Your task to perform on an android device: Look up the best selling books on Goodreads. Image 0: 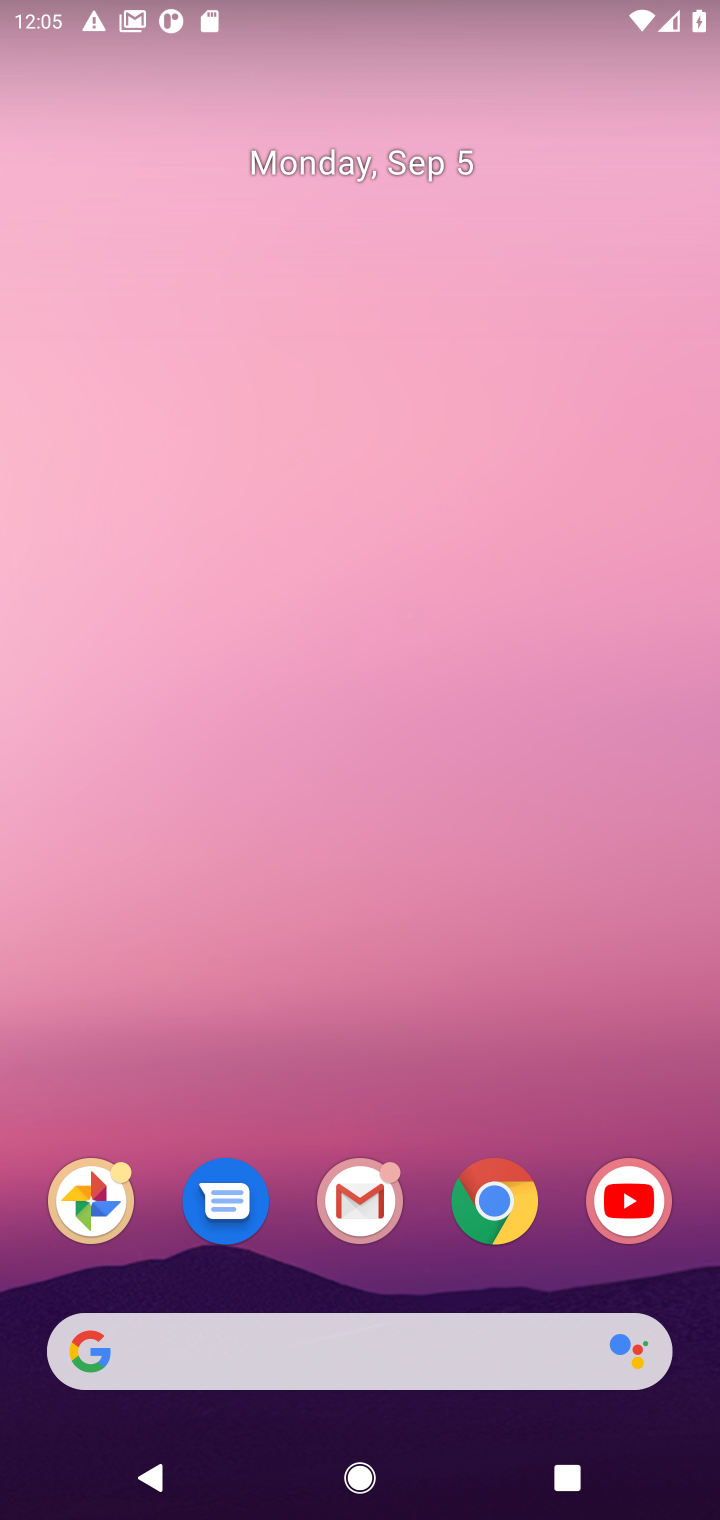
Step 0: click (507, 1187)
Your task to perform on an android device: Look up the best selling books on Goodreads. Image 1: 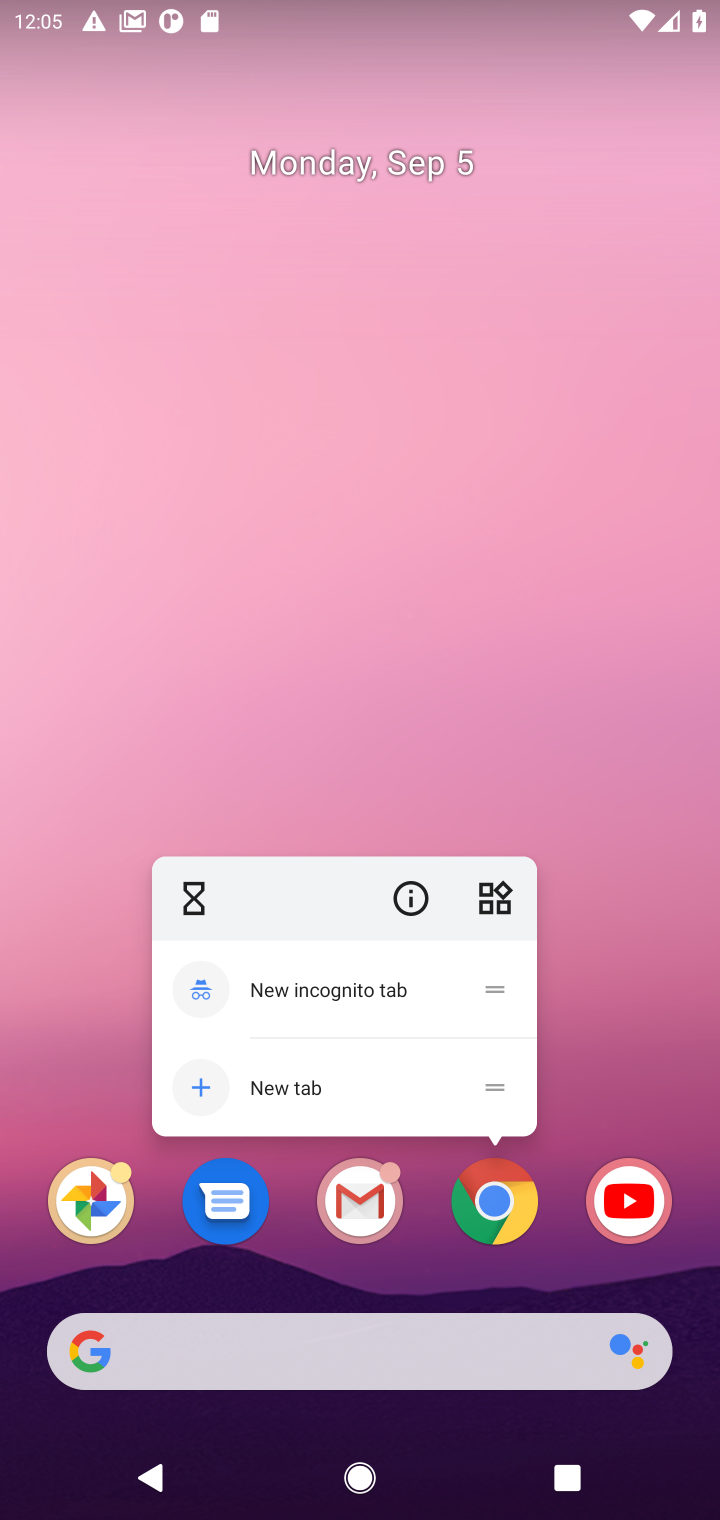
Step 1: click (491, 1227)
Your task to perform on an android device: Look up the best selling books on Goodreads. Image 2: 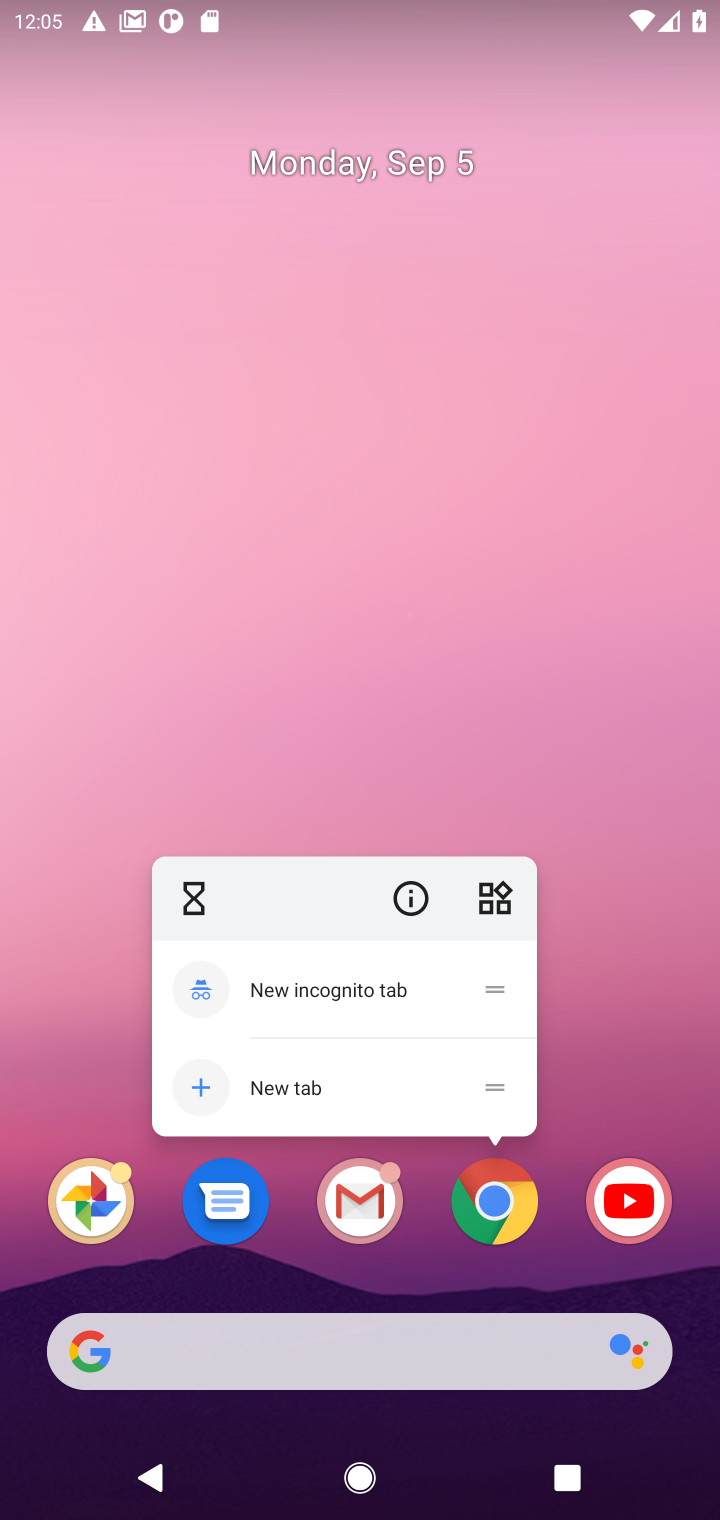
Step 2: click (490, 1231)
Your task to perform on an android device: Look up the best selling books on Goodreads. Image 3: 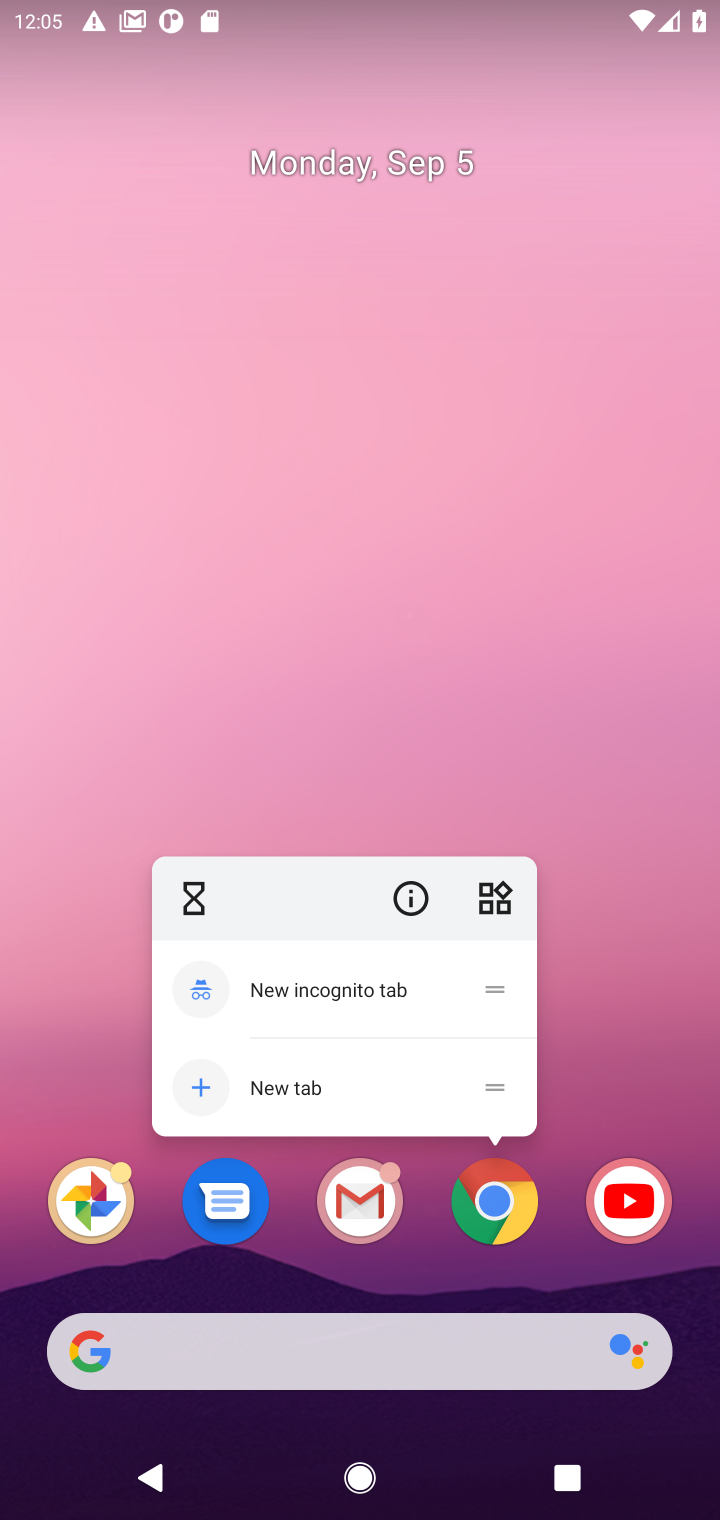
Step 3: click (490, 1220)
Your task to perform on an android device: Look up the best selling books on Goodreads. Image 4: 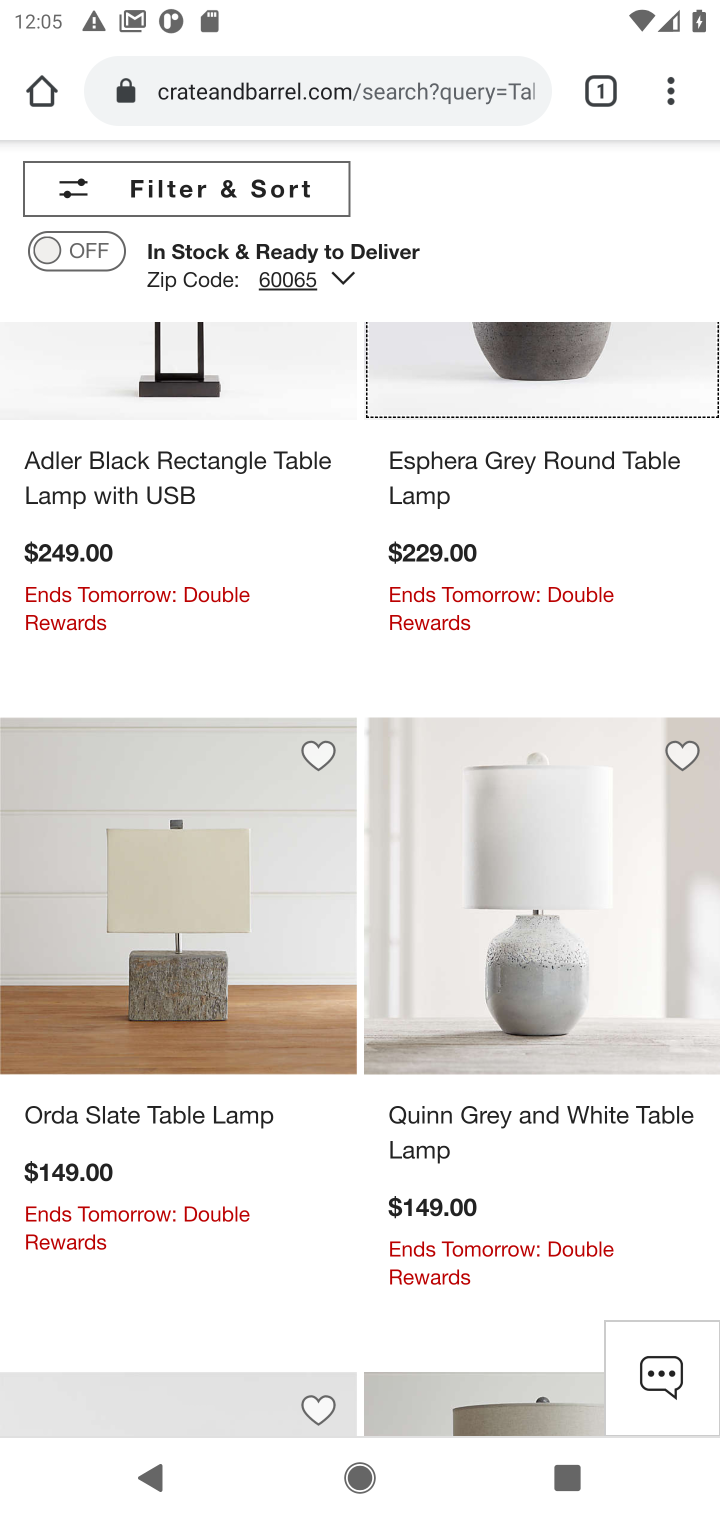
Step 4: click (327, 77)
Your task to perform on an android device: Look up the best selling books on Goodreads. Image 5: 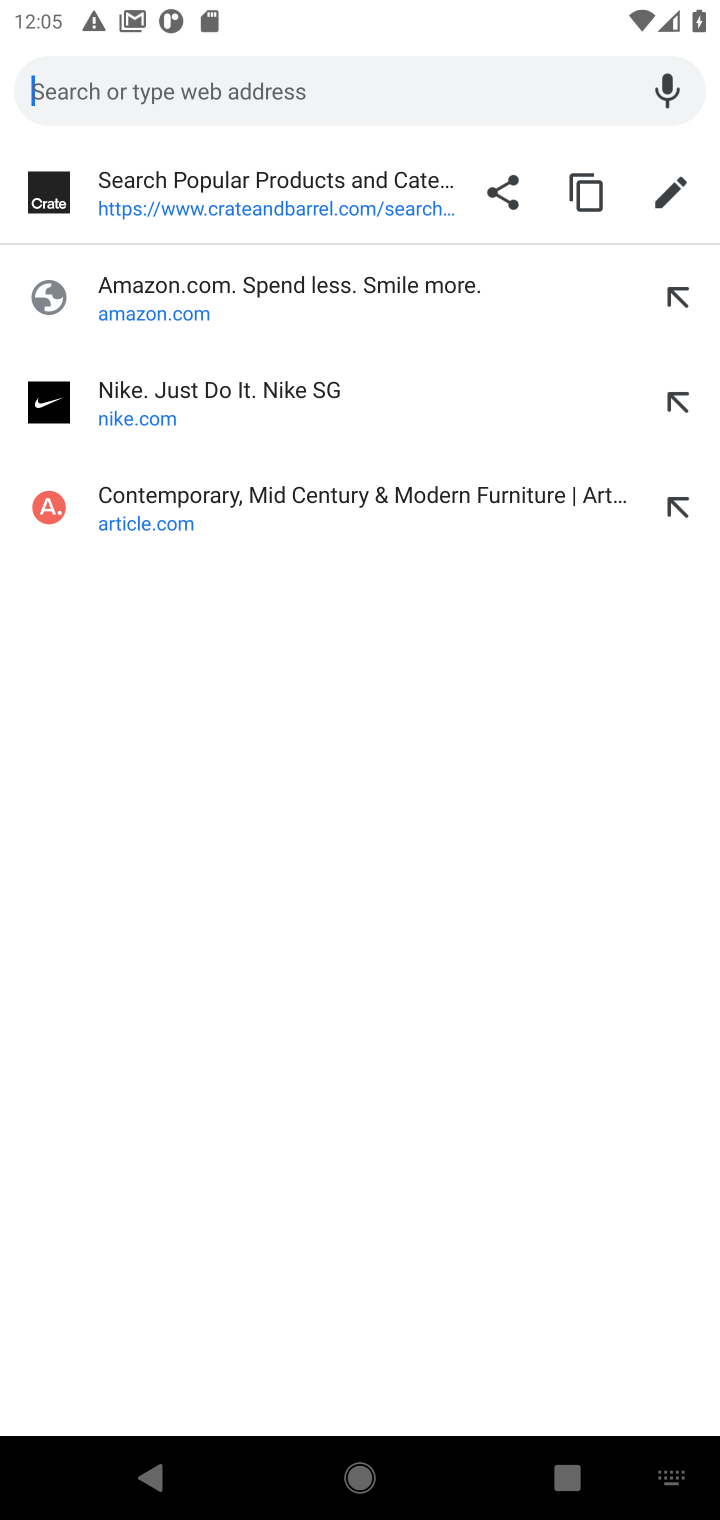
Step 5: type "goodreads"
Your task to perform on an android device: Look up the best selling books on Goodreads. Image 6: 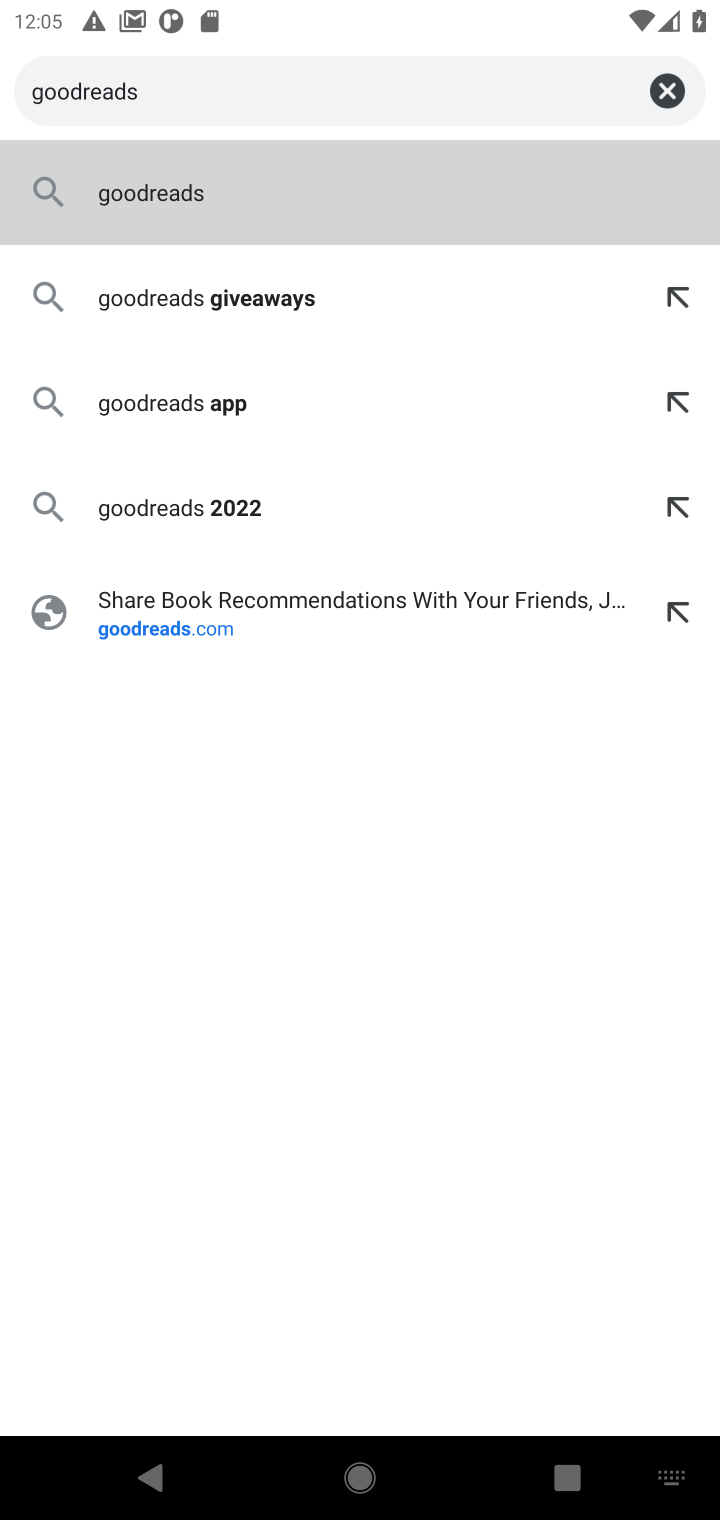
Step 6: type ""
Your task to perform on an android device: Look up the best selling books on Goodreads. Image 7: 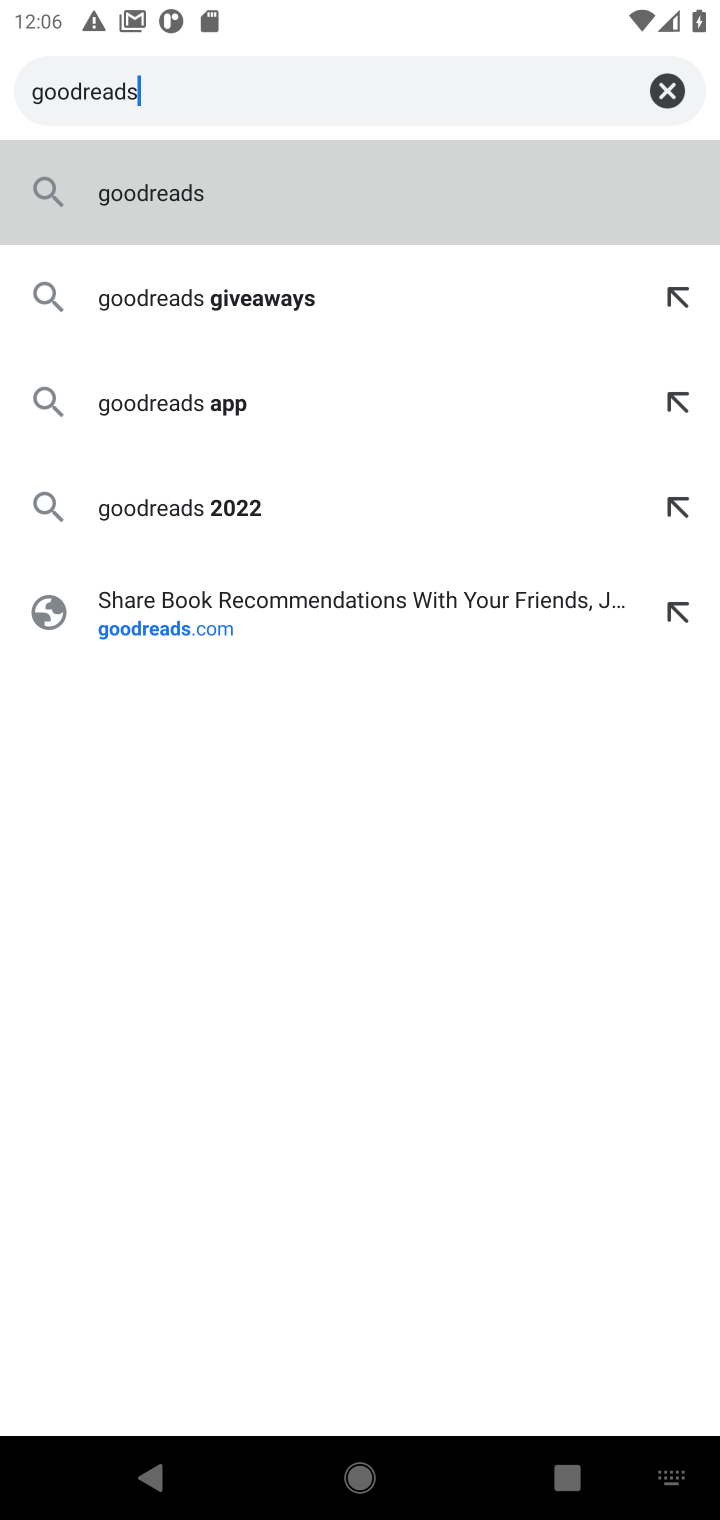
Step 7: click (155, 623)
Your task to perform on an android device: Look up the best selling books on Goodreads. Image 8: 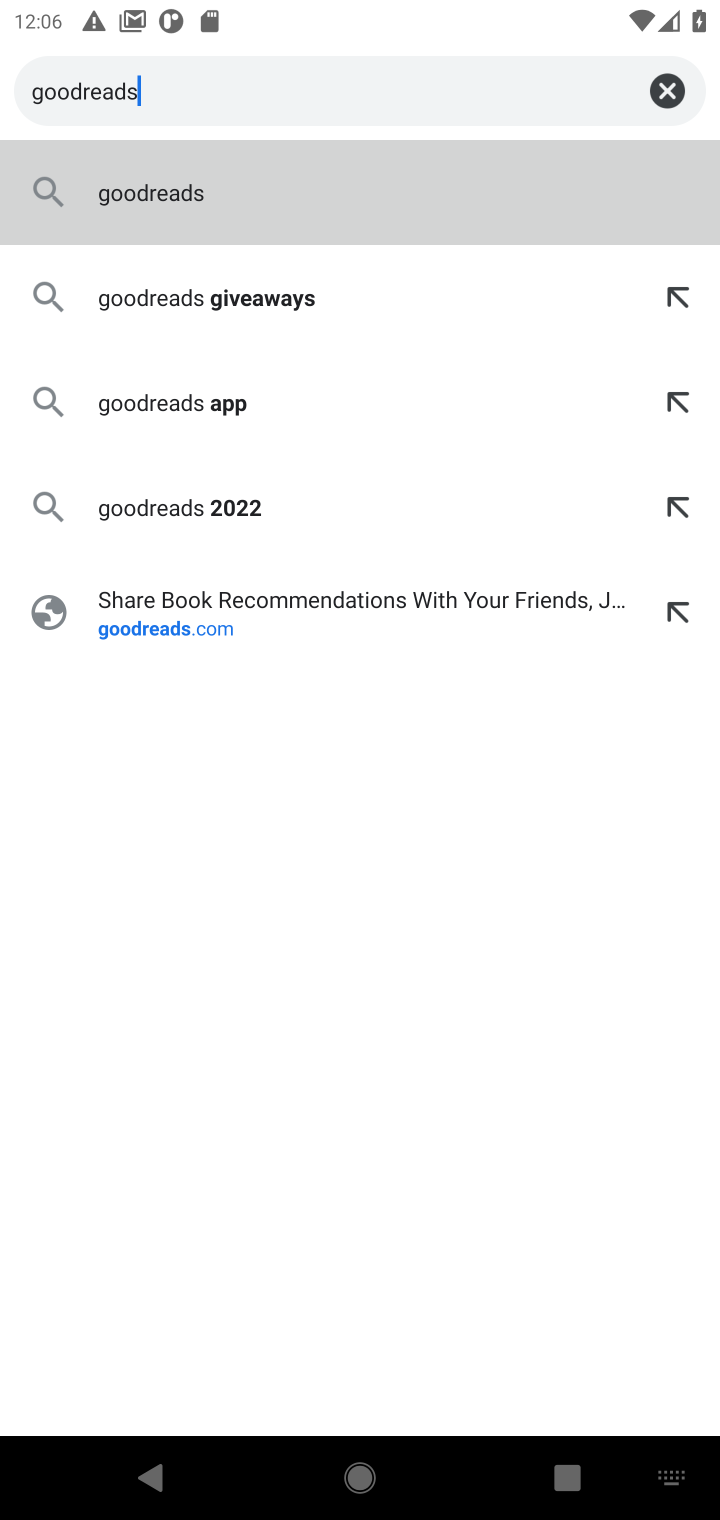
Step 8: click (155, 626)
Your task to perform on an android device: Look up the best selling books on Goodreads. Image 9: 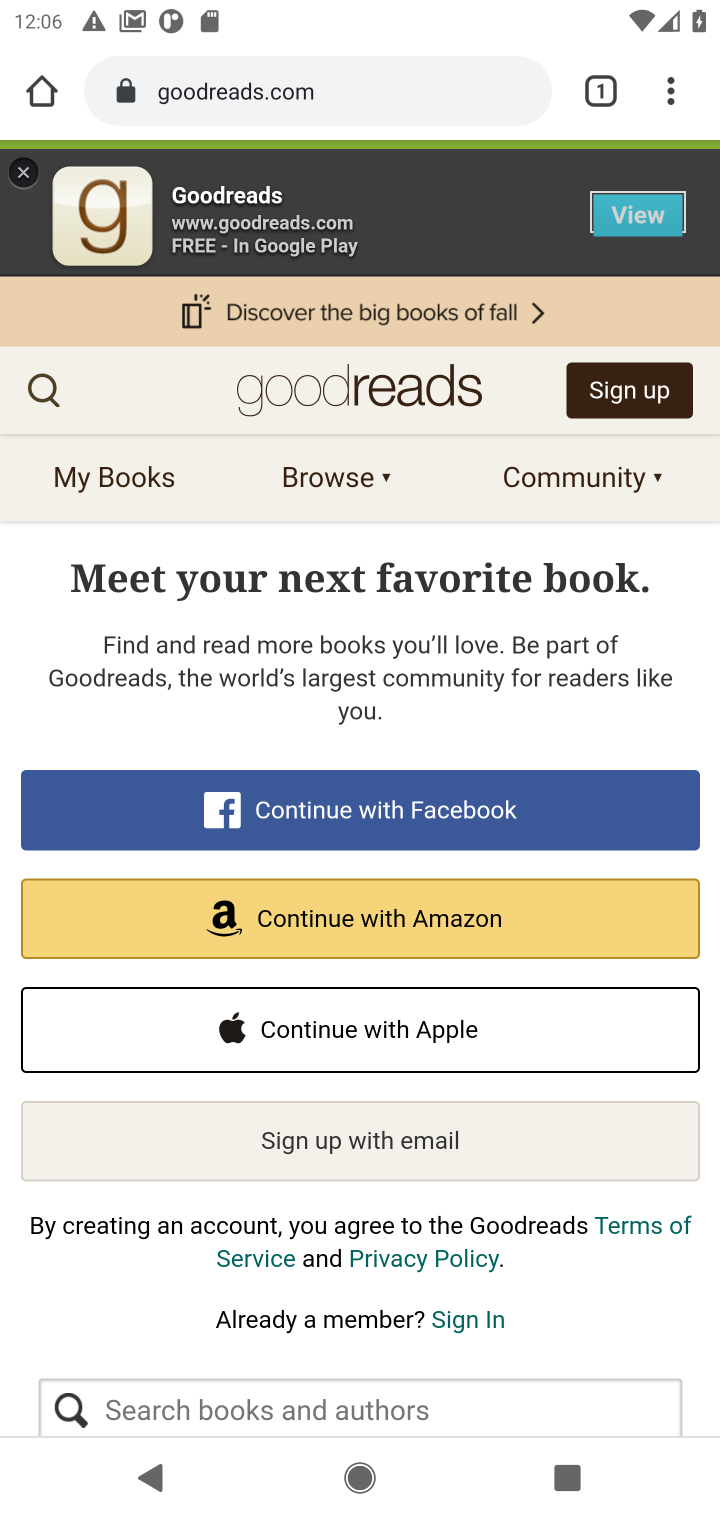
Step 9: click (44, 385)
Your task to perform on an android device: Look up the best selling books on Goodreads. Image 10: 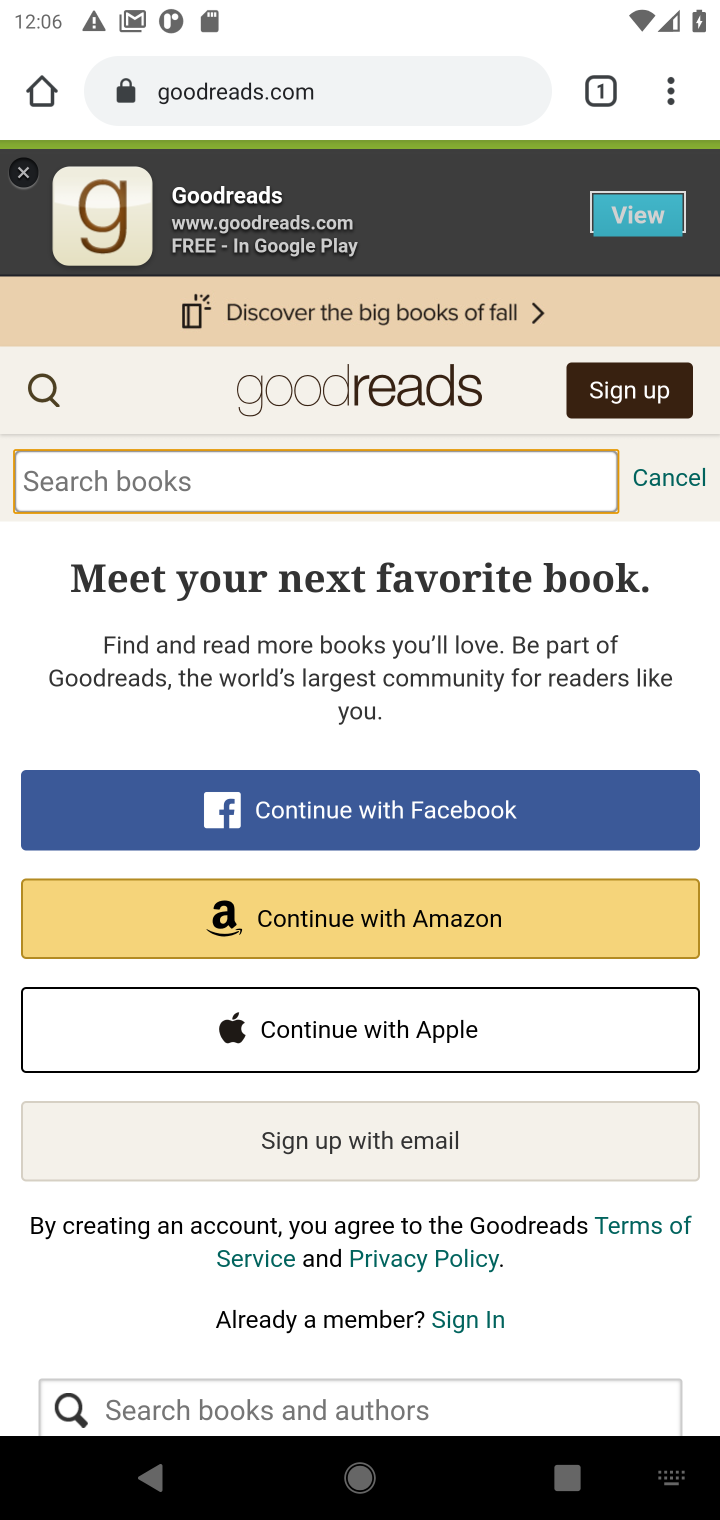
Step 10: click (95, 483)
Your task to perform on an android device: Look up the best selling books on Goodreads. Image 11: 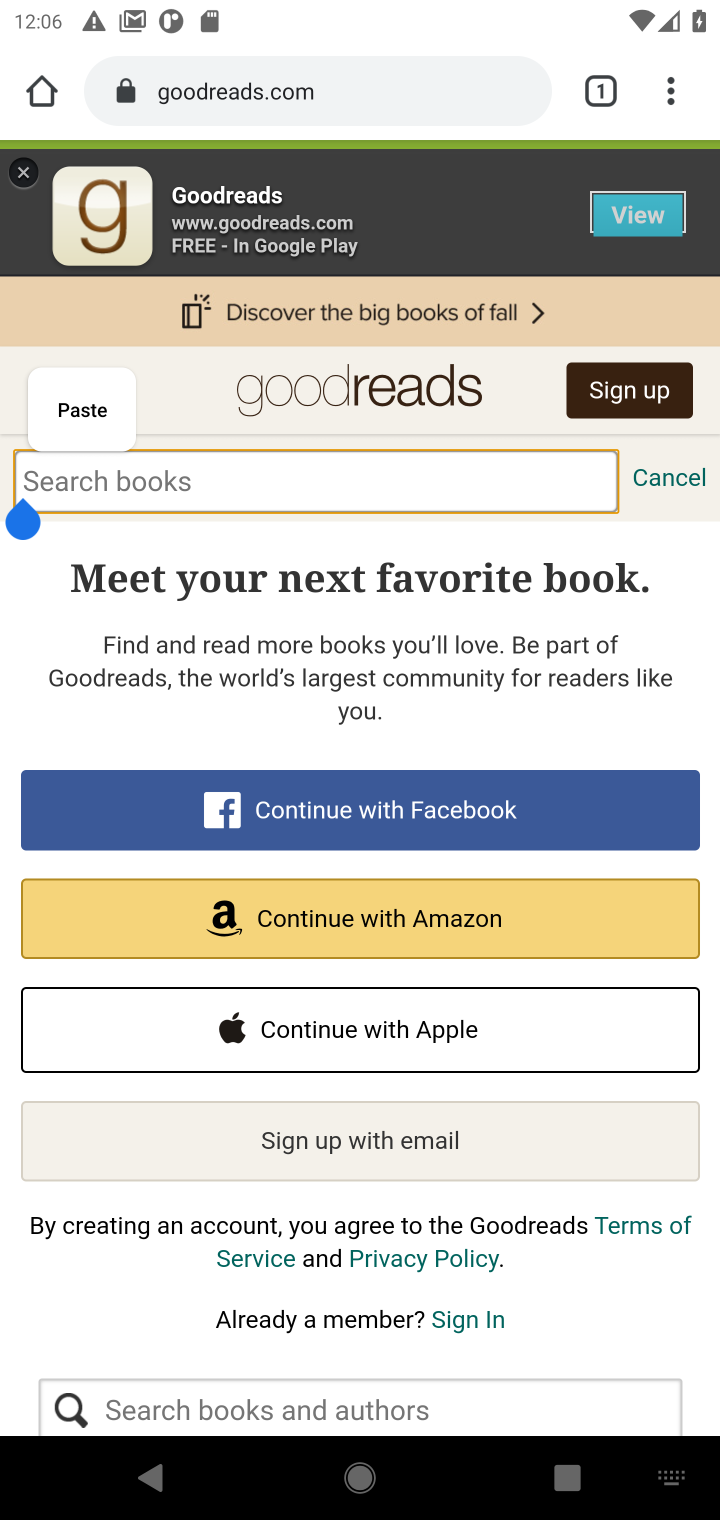
Step 11: type "best books"
Your task to perform on an android device: Look up the best selling books on Goodreads. Image 12: 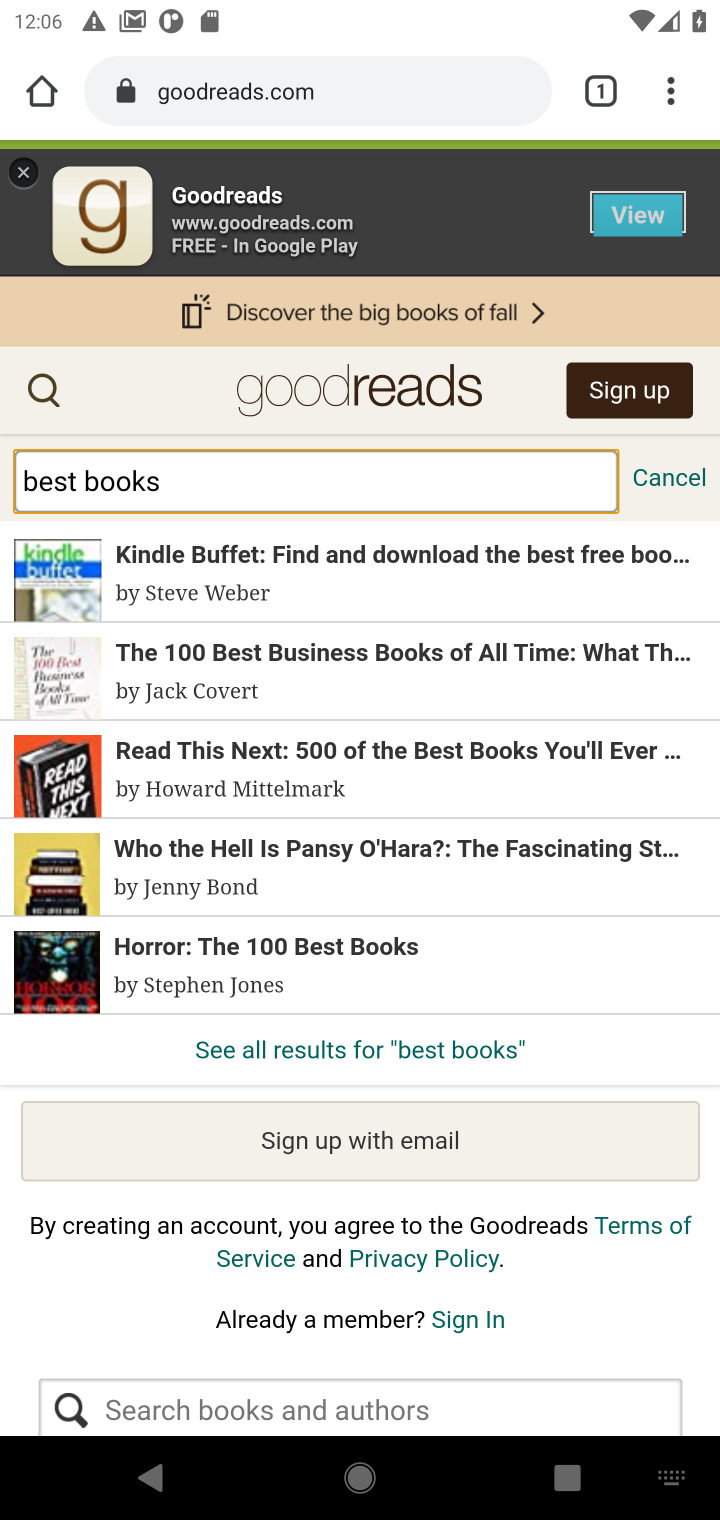
Step 12: click (282, 683)
Your task to perform on an android device: Look up the best selling books on Goodreads. Image 13: 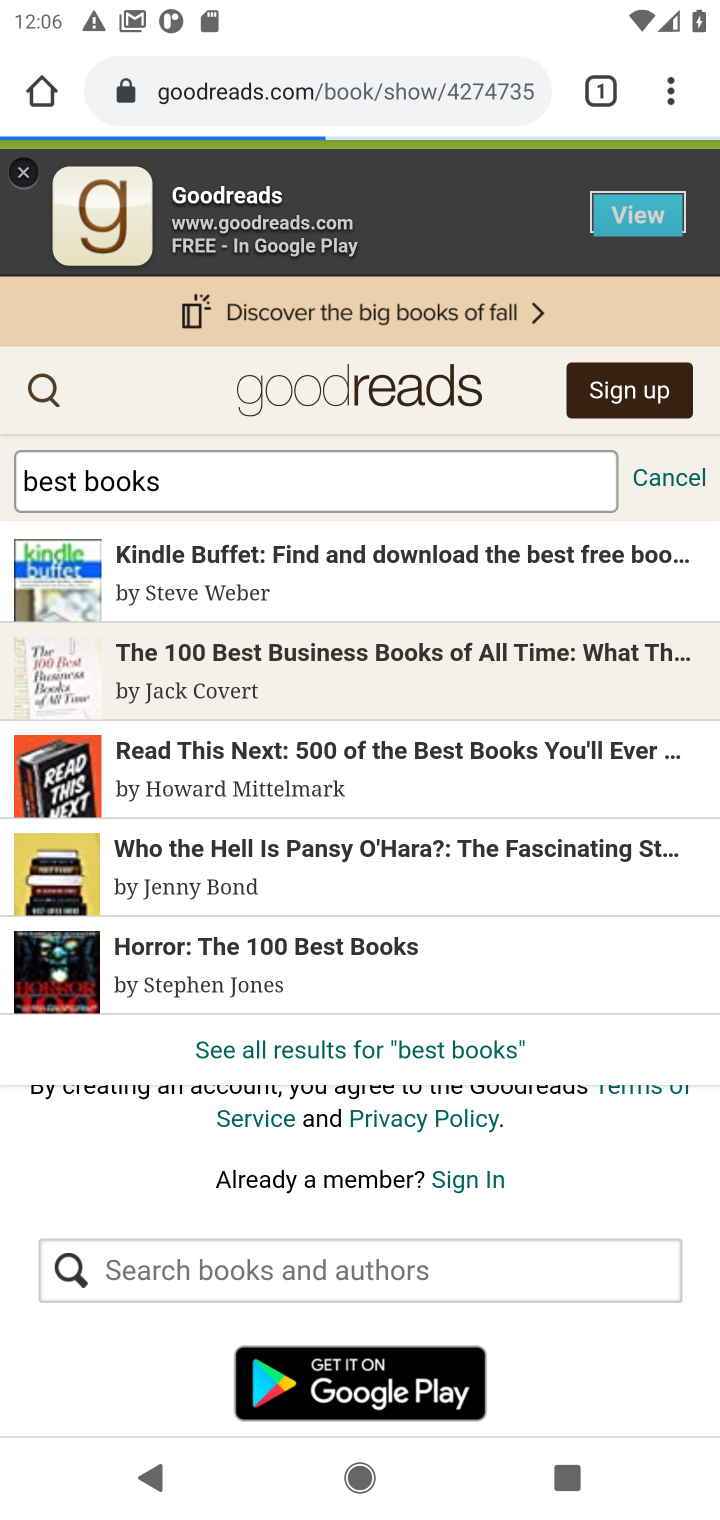
Step 13: click (354, 703)
Your task to perform on an android device: Look up the best selling books on Goodreads. Image 14: 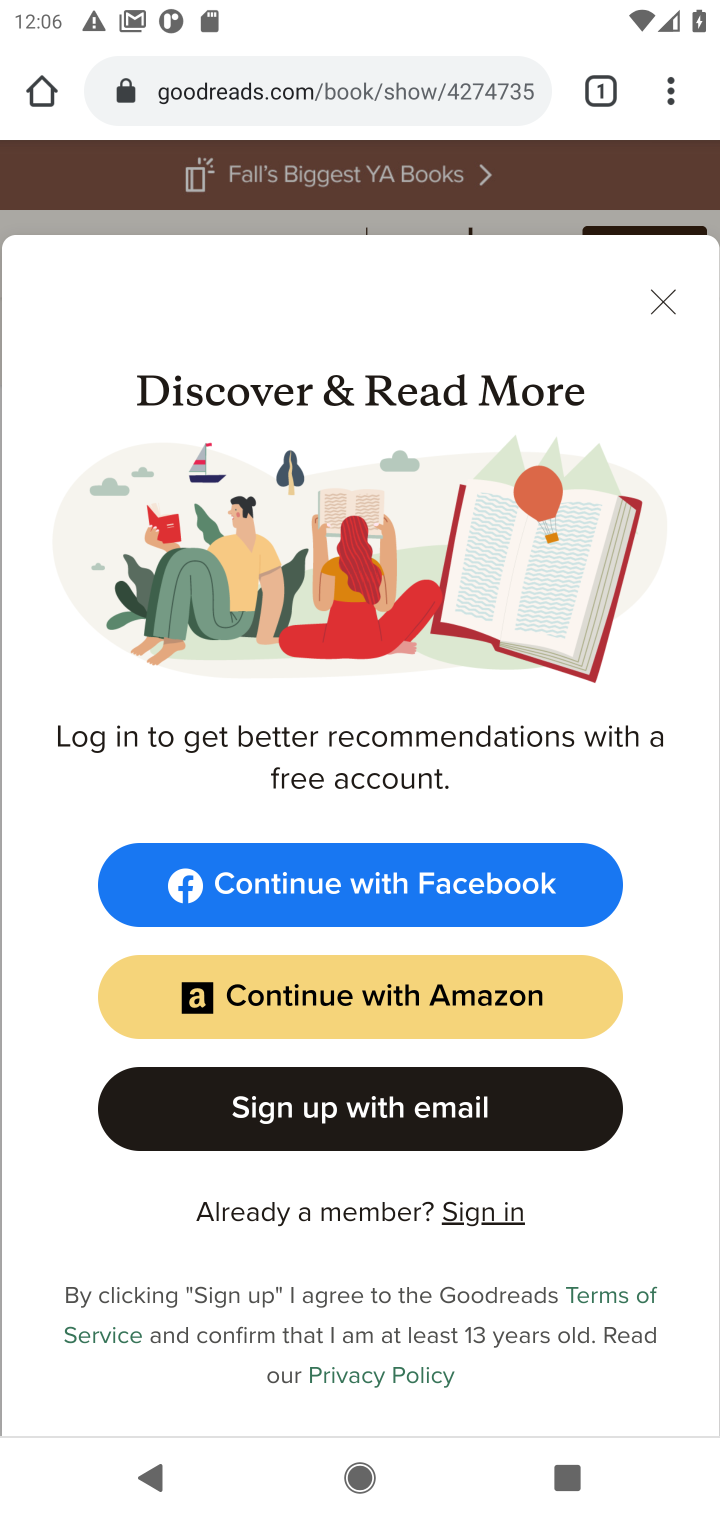
Step 14: click (651, 303)
Your task to perform on an android device: Look up the best selling books on Goodreads. Image 15: 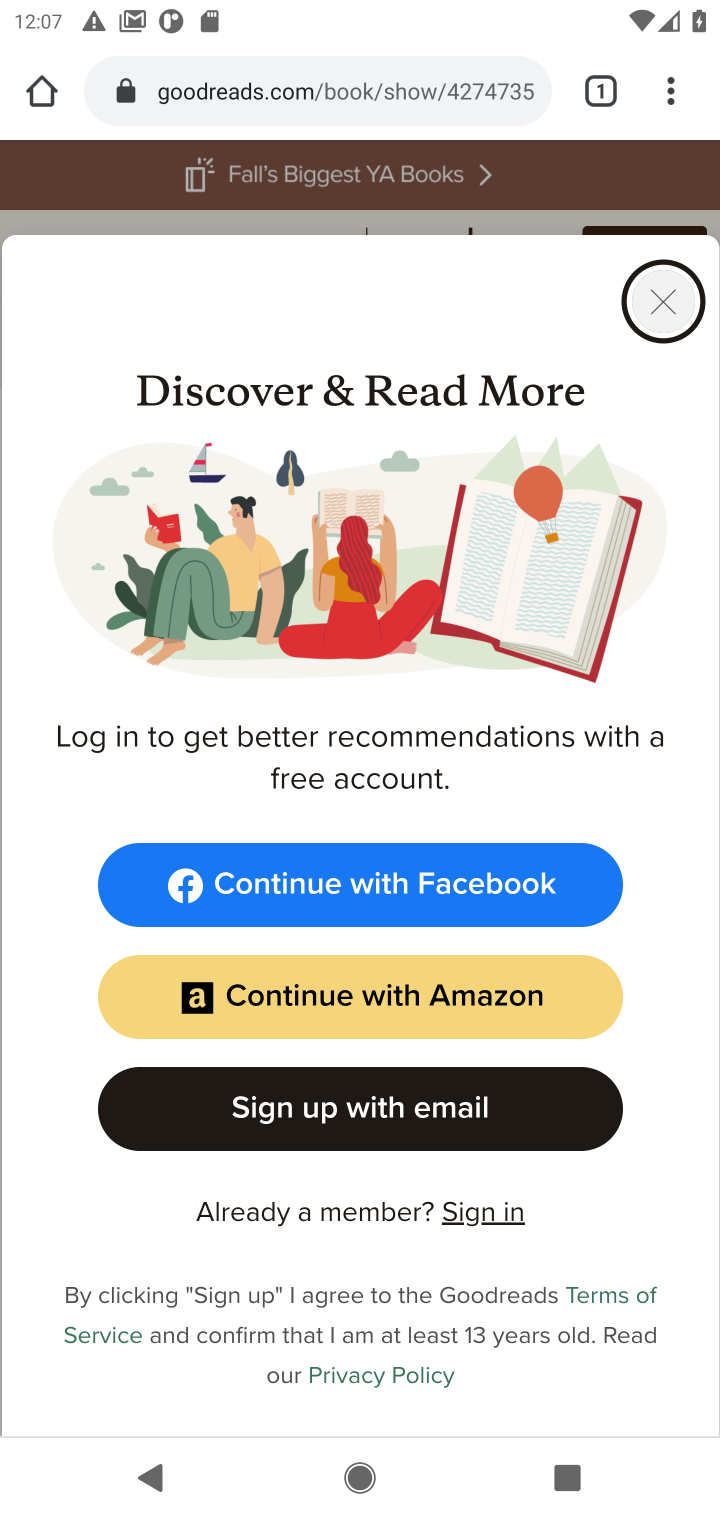
Step 15: click (656, 306)
Your task to perform on an android device: Look up the best selling books on Goodreads. Image 16: 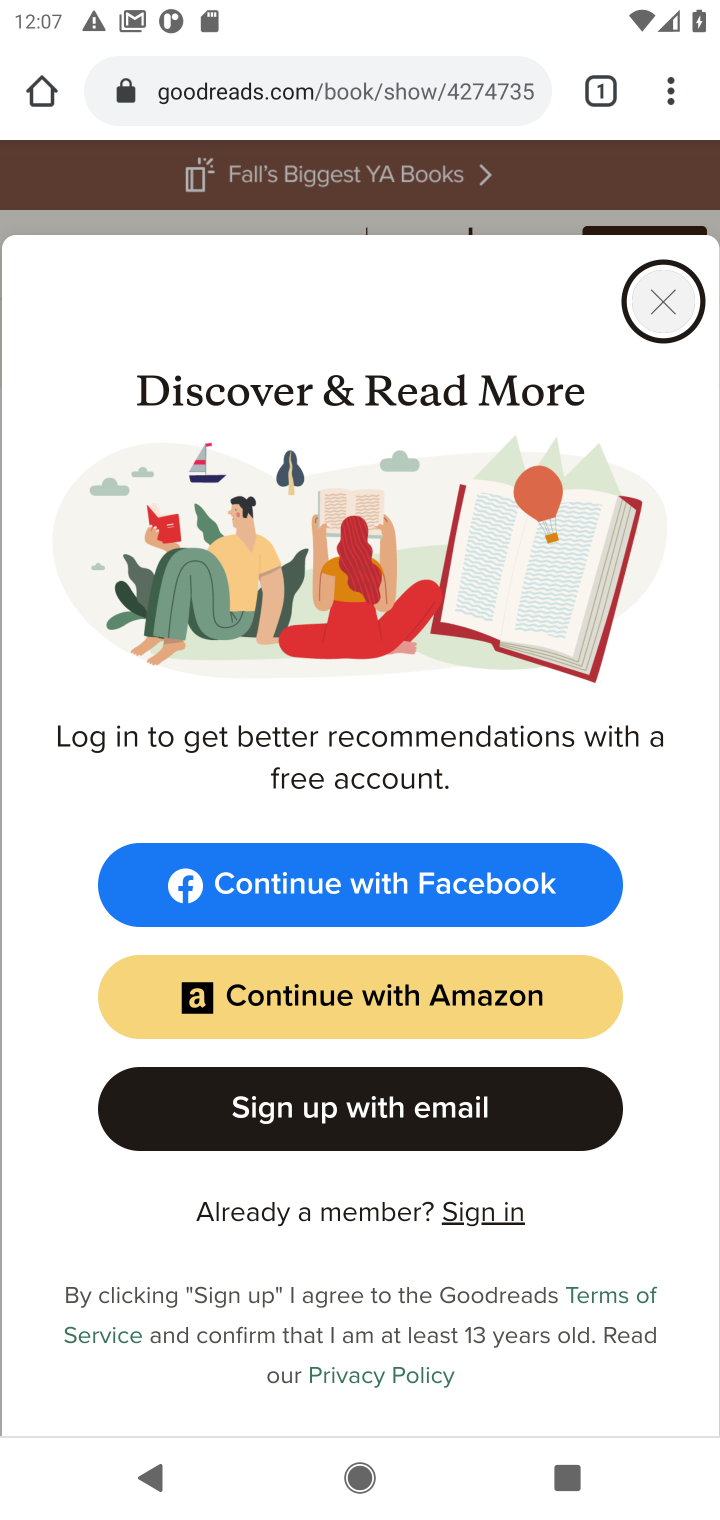
Step 16: click (677, 316)
Your task to perform on an android device: Look up the best selling books on Goodreads. Image 17: 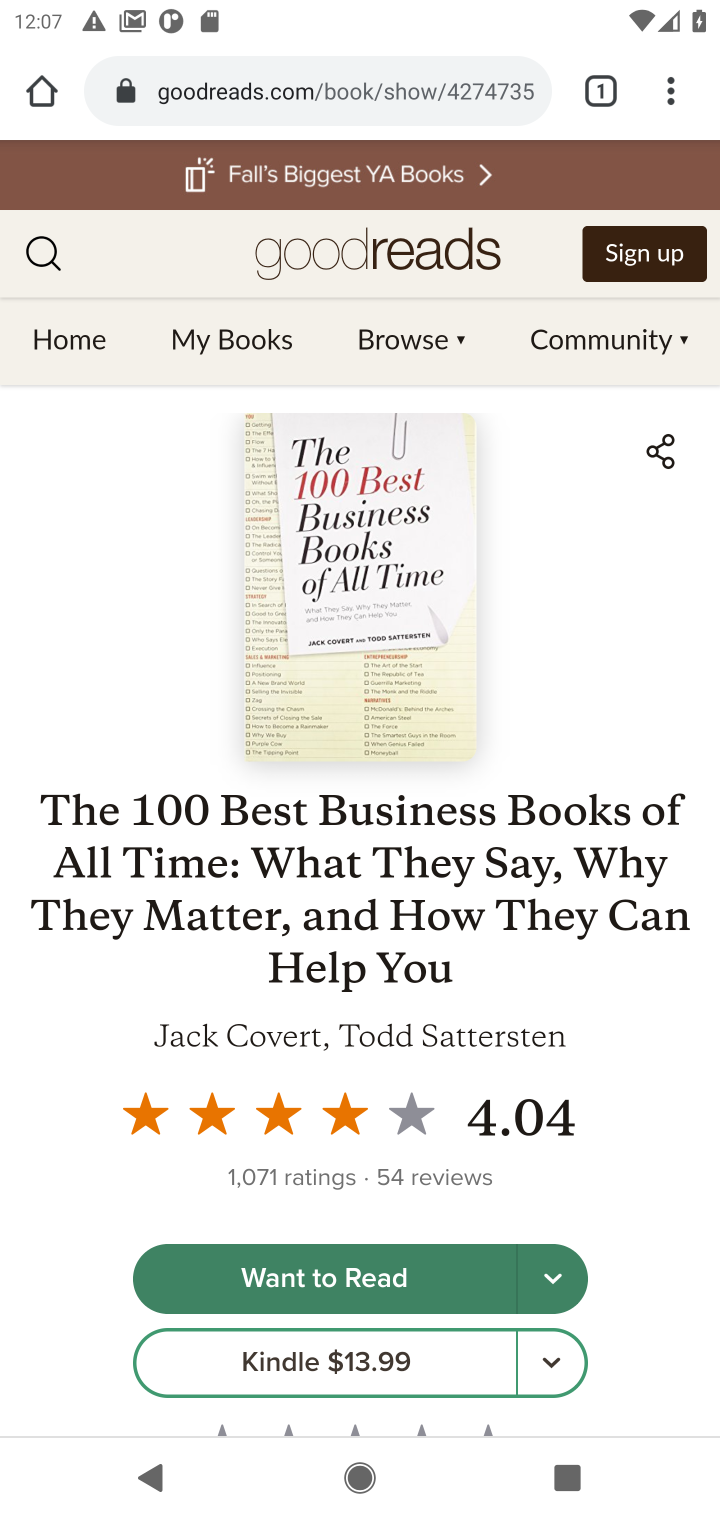
Step 17: click (38, 246)
Your task to perform on an android device: Look up the best selling books on Goodreads. Image 18: 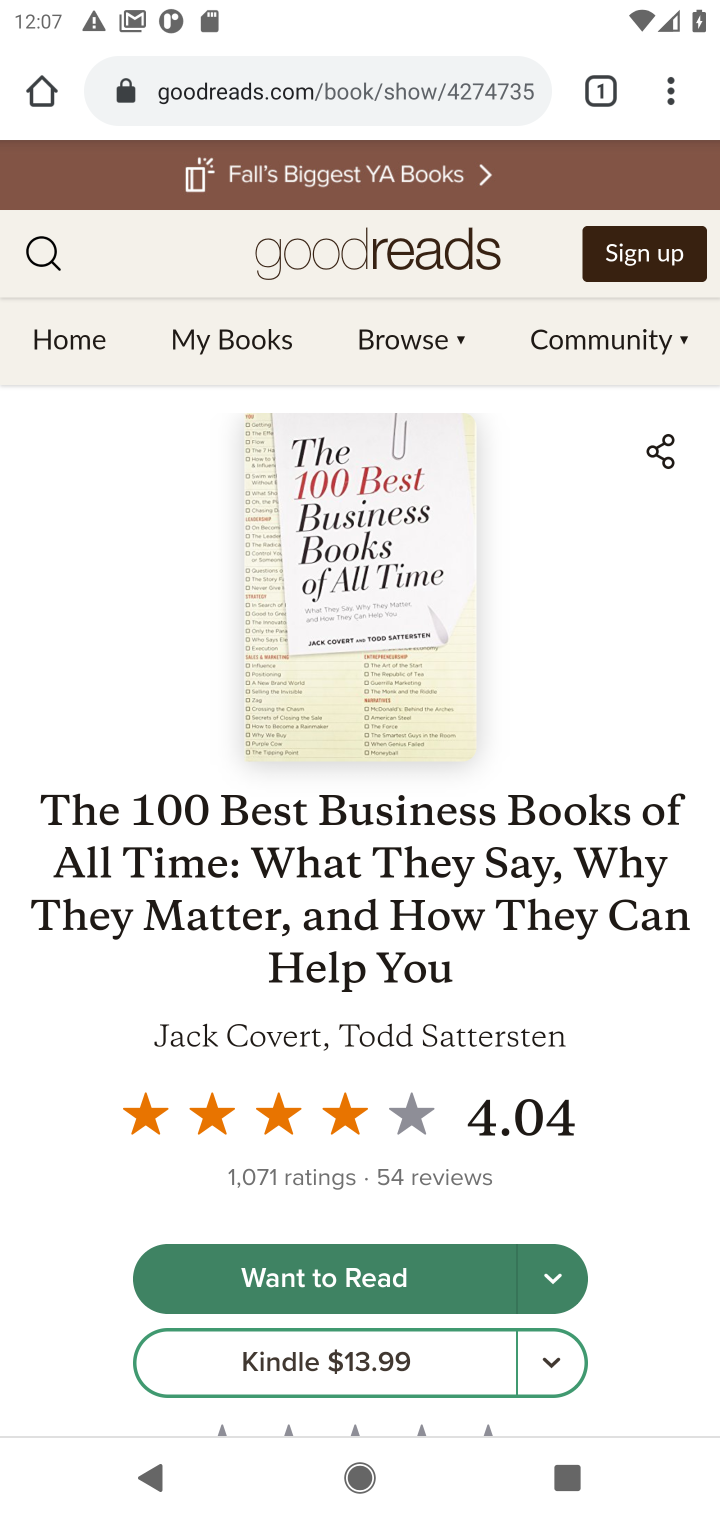
Step 18: click (38, 246)
Your task to perform on an android device: Look up the best selling books on Goodreads. Image 19: 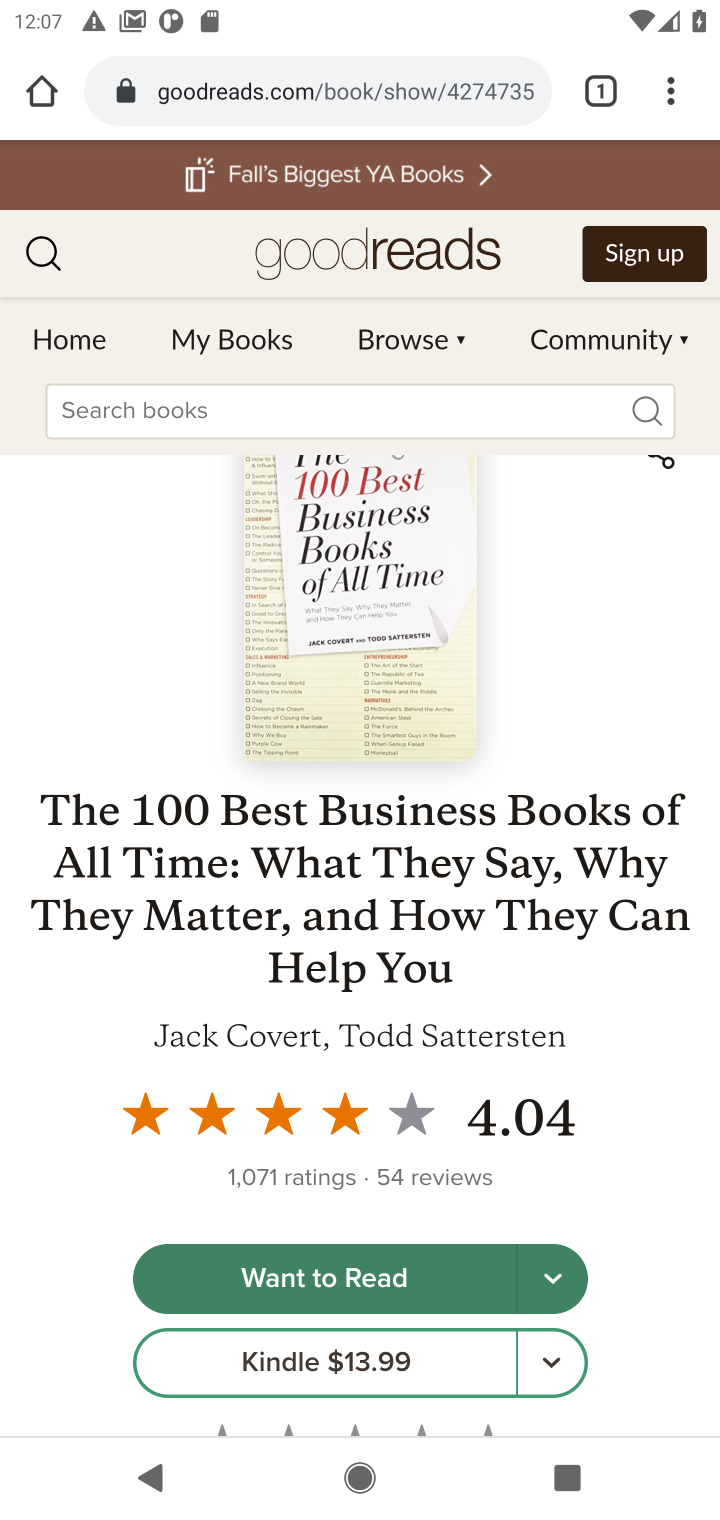
Step 19: click (166, 402)
Your task to perform on an android device: Look up the best selling books on Goodreads. Image 20: 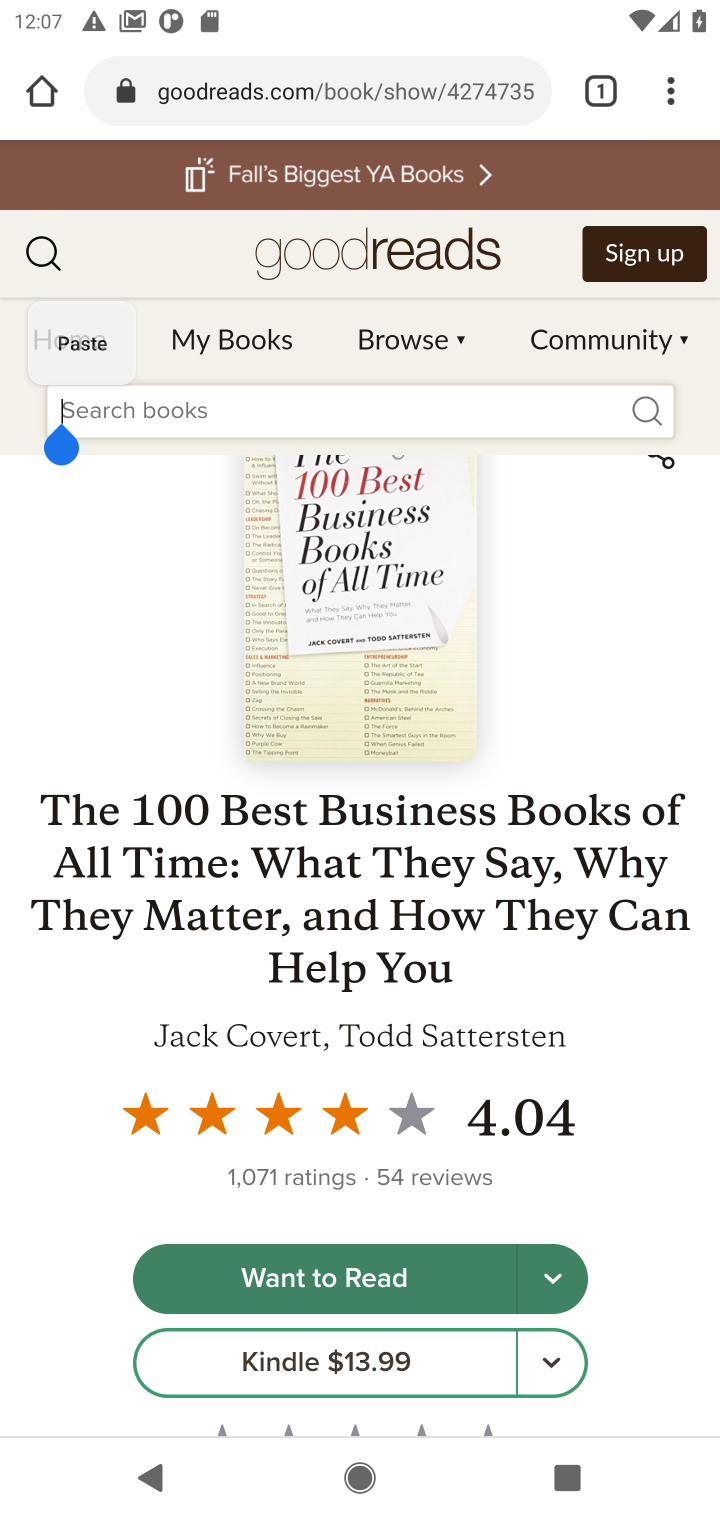
Step 20: click (166, 402)
Your task to perform on an android device: Look up the best selling books on Goodreads. Image 21: 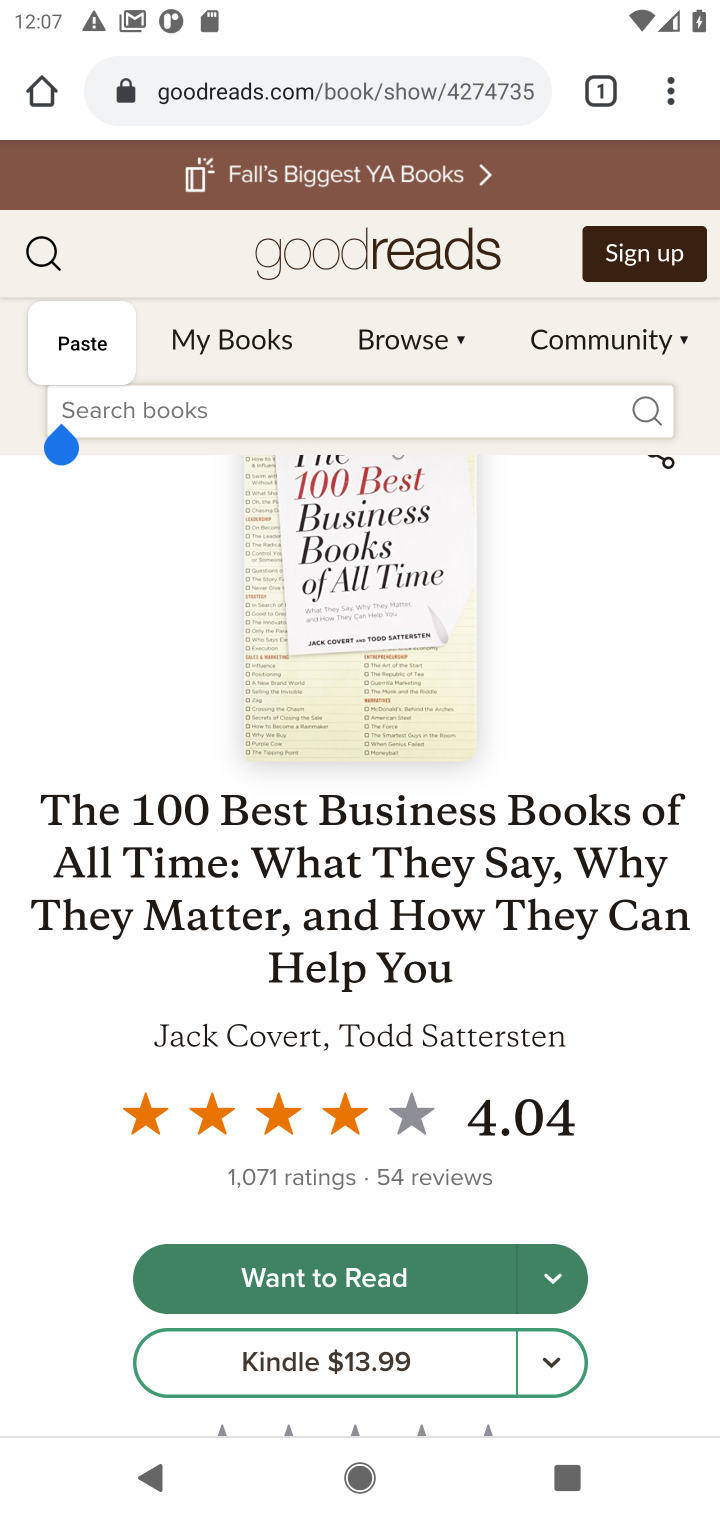
Step 21: click (605, 412)
Your task to perform on an android device: Look up the best selling books on Goodreads. Image 22: 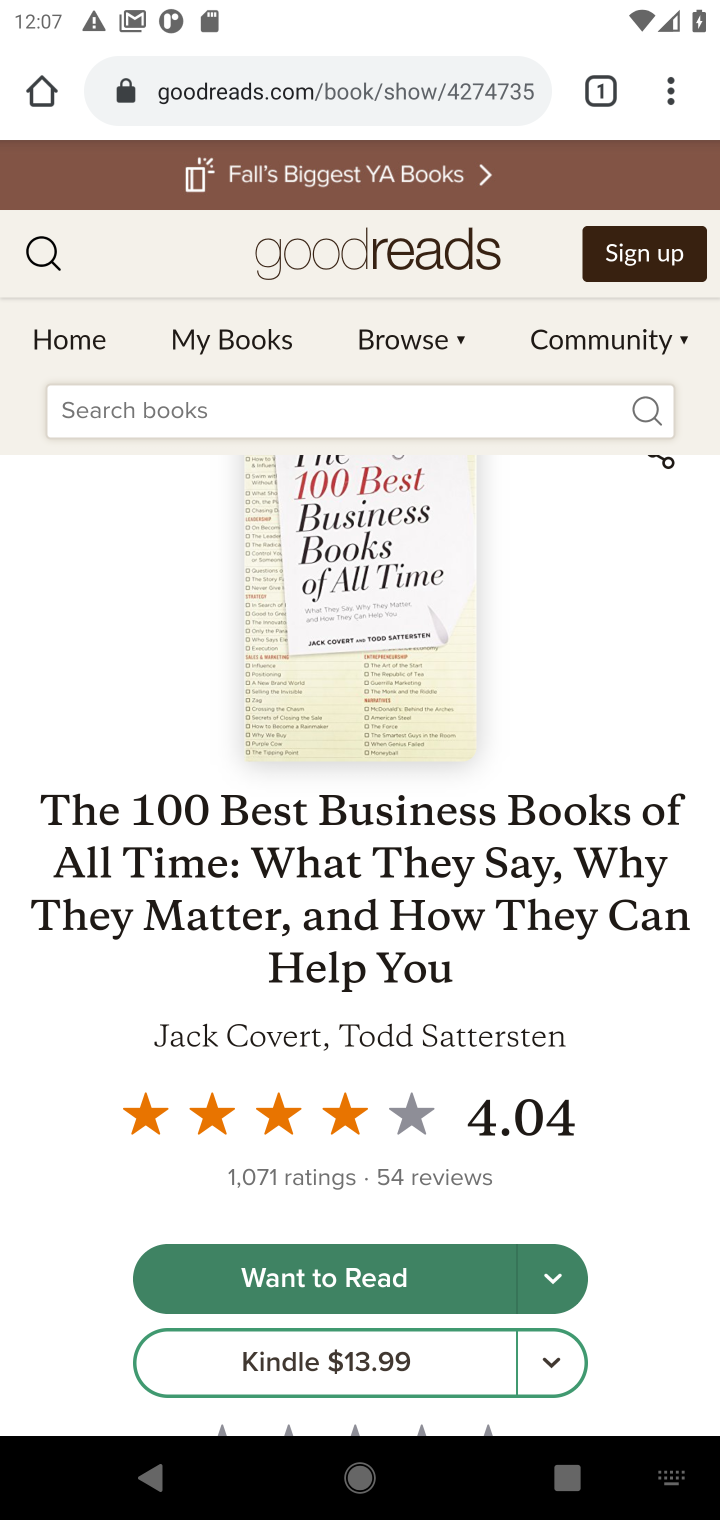
Step 22: type "selling books "
Your task to perform on an android device: Look up the best selling books on Goodreads. Image 23: 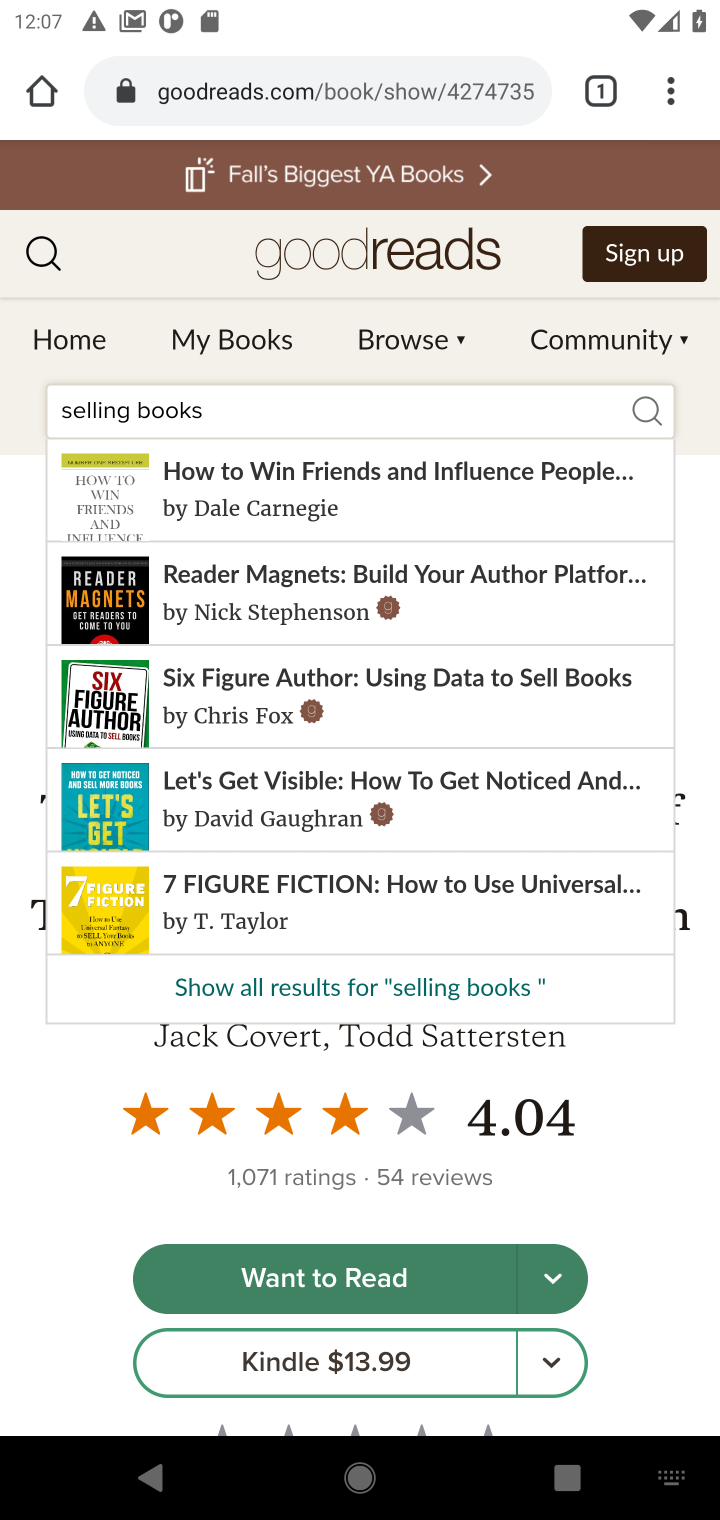
Step 23: click (306, 992)
Your task to perform on an android device: Look up the best selling books on Goodreads. Image 24: 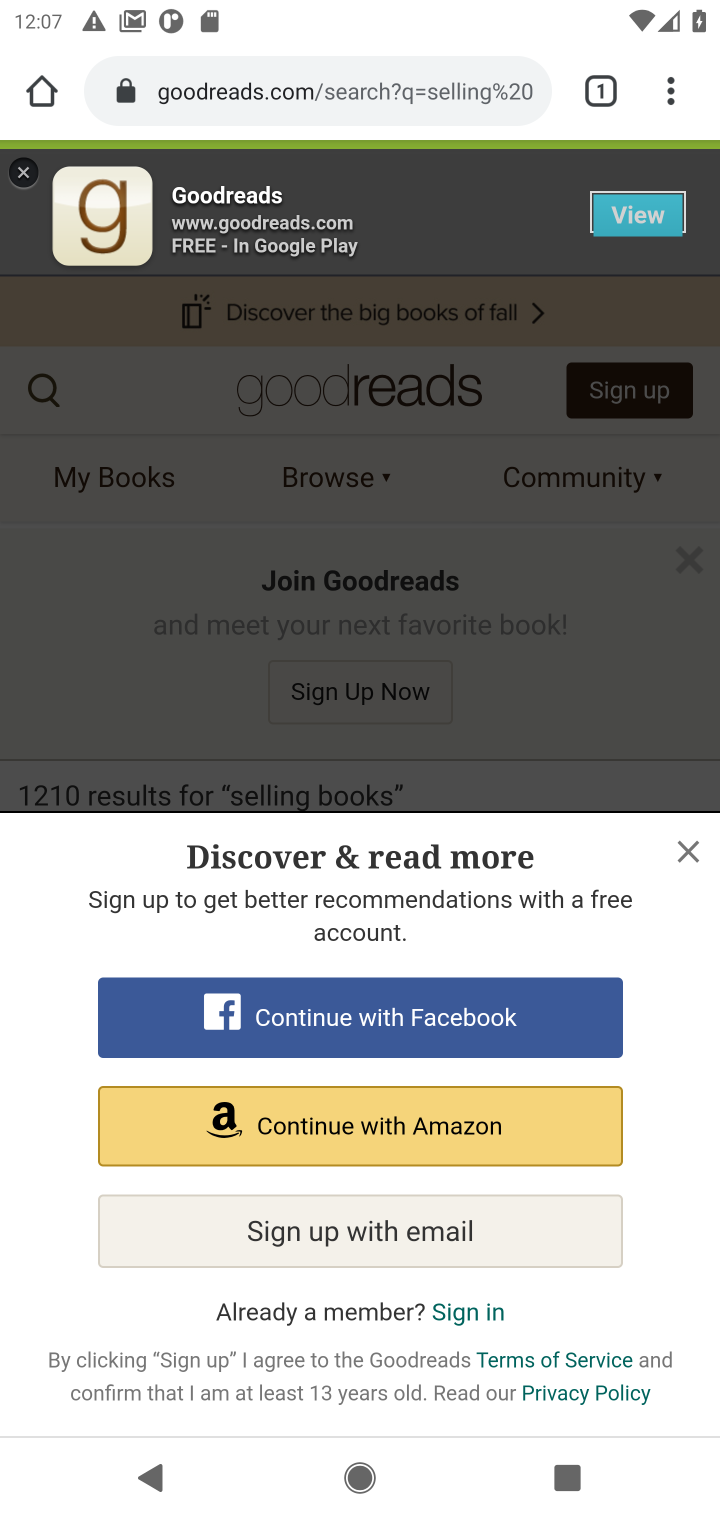
Step 24: click (688, 847)
Your task to perform on an android device: Look up the best selling books on Goodreads. Image 25: 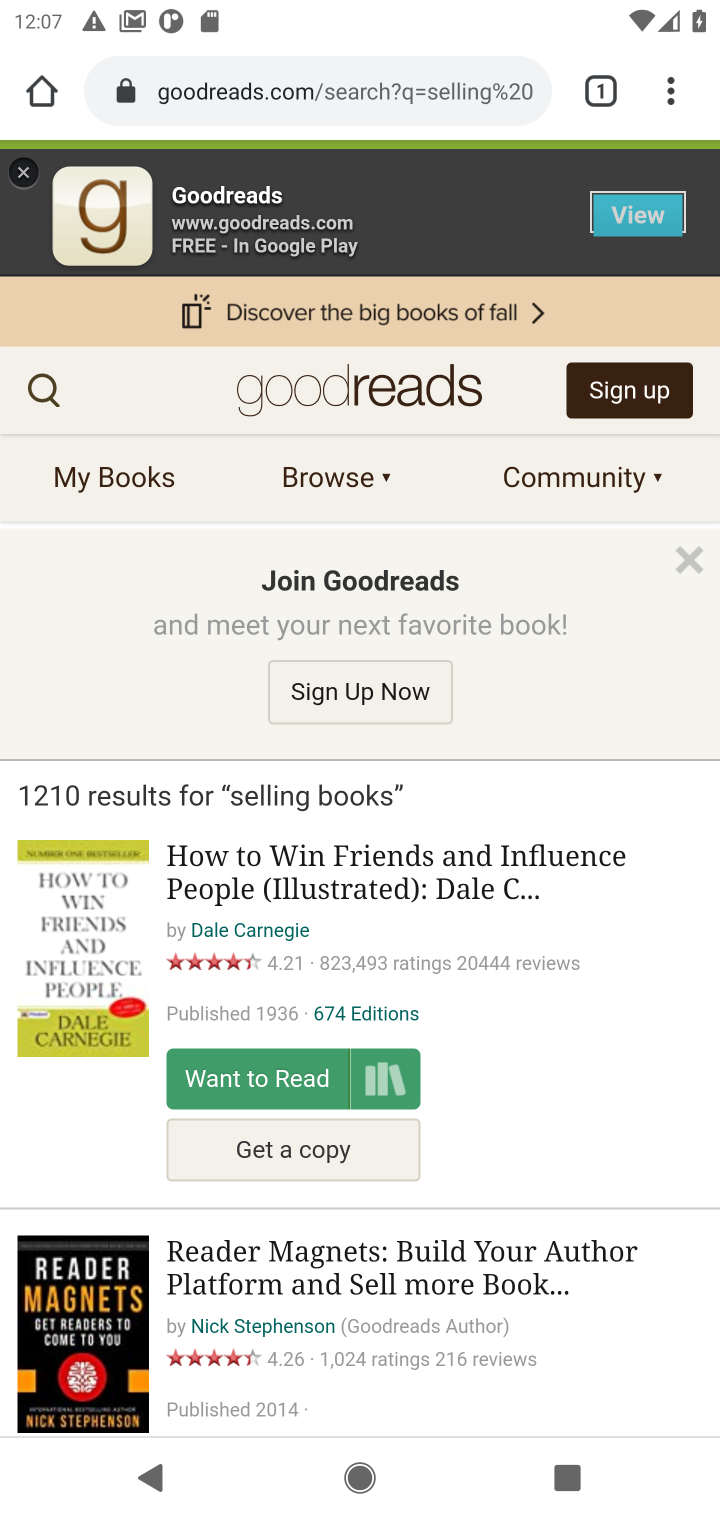
Step 25: drag from (573, 1066) to (380, 150)
Your task to perform on an android device: Look up the best selling books on Goodreads. Image 26: 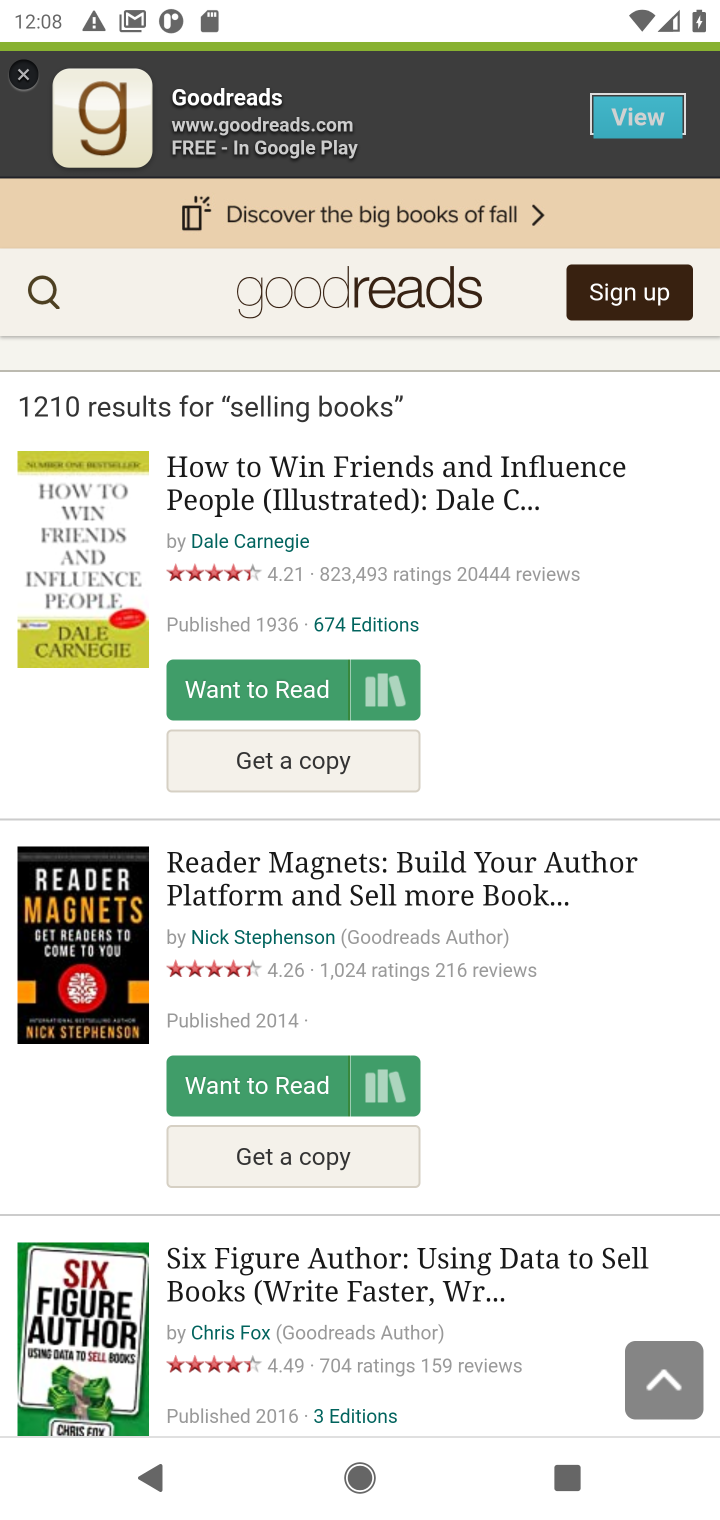
Step 26: drag from (547, 971) to (550, 530)
Your task to perform on an android device: Look up the best selling books on Goodreads. Image 27: 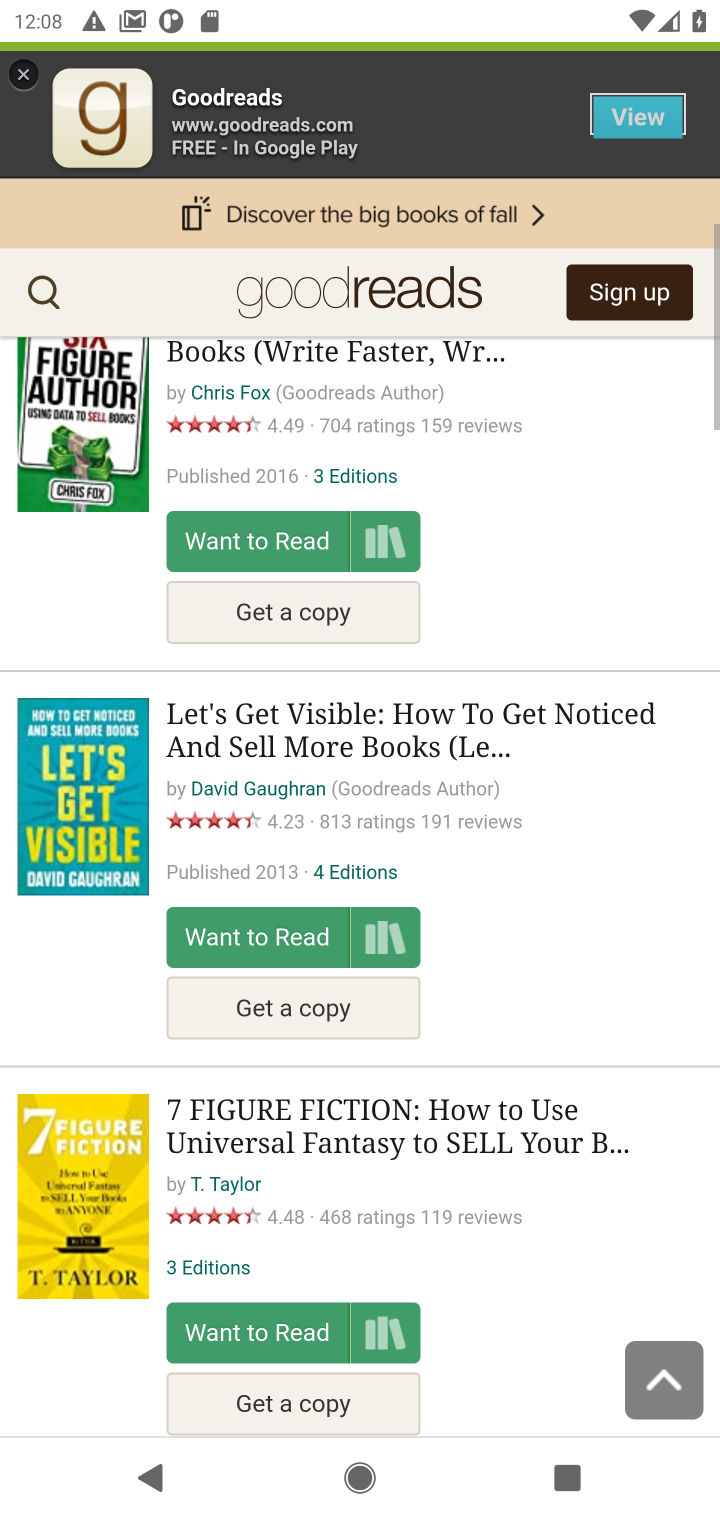
Step 27: click (611, 443)
Your task to perform on an android device: Look up the best selling books on Goodreads. Image 28: 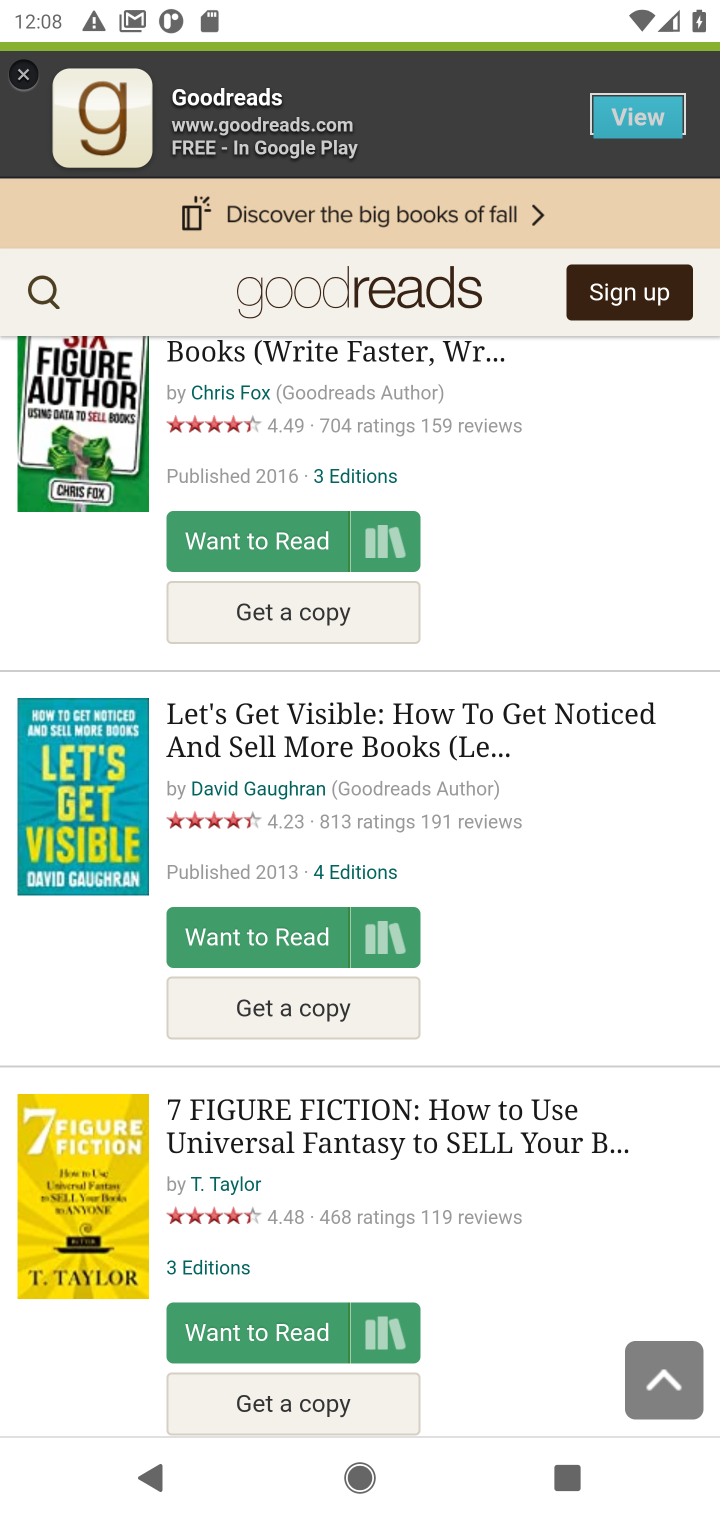
Step 28: drag from (559, 1162) to (534, 380)
Your task to perform on an android device: Look up the best selling books on Goodreads. Image 29: 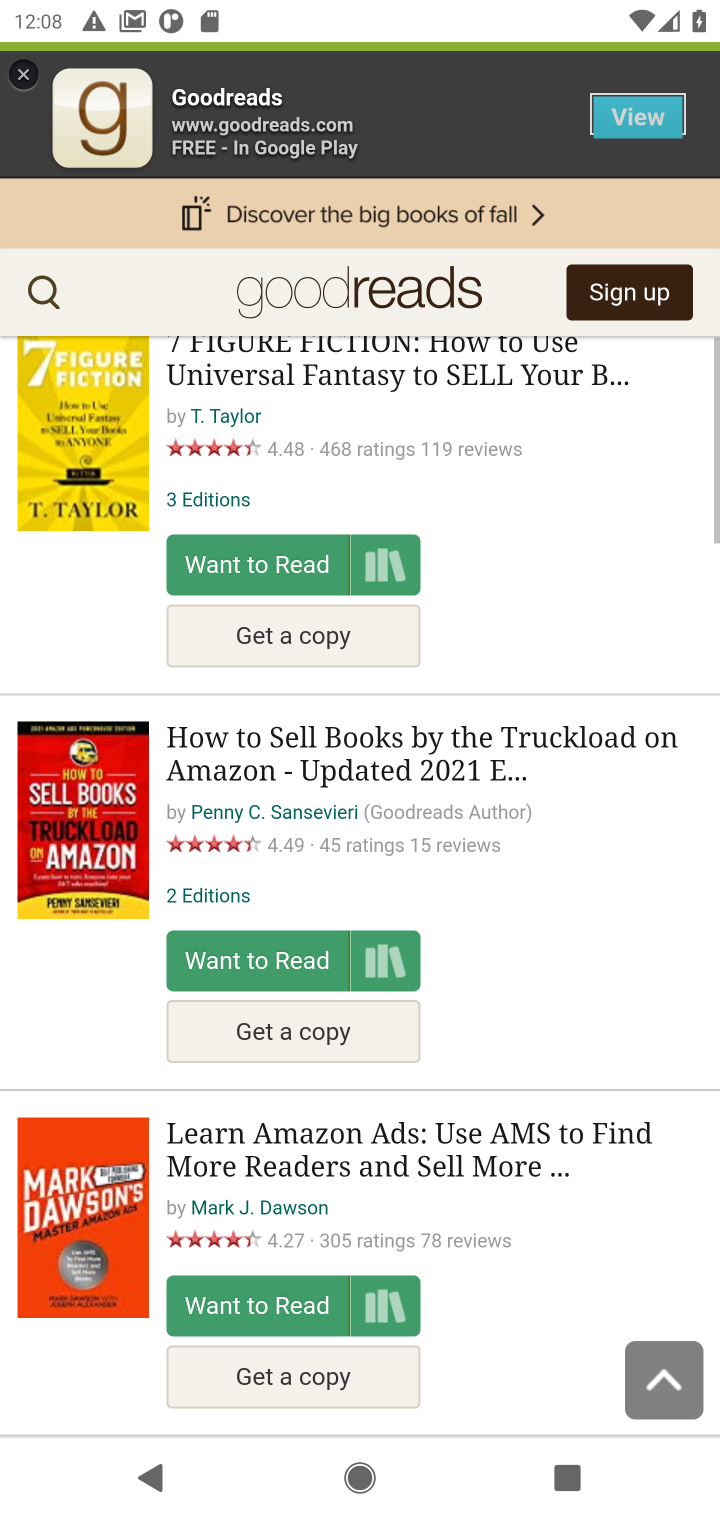
Step 29: drag from (554, 1031) to (550, 366)
Your task to perform on an android device: Look up the best selling books on Goodreads. Image 30: 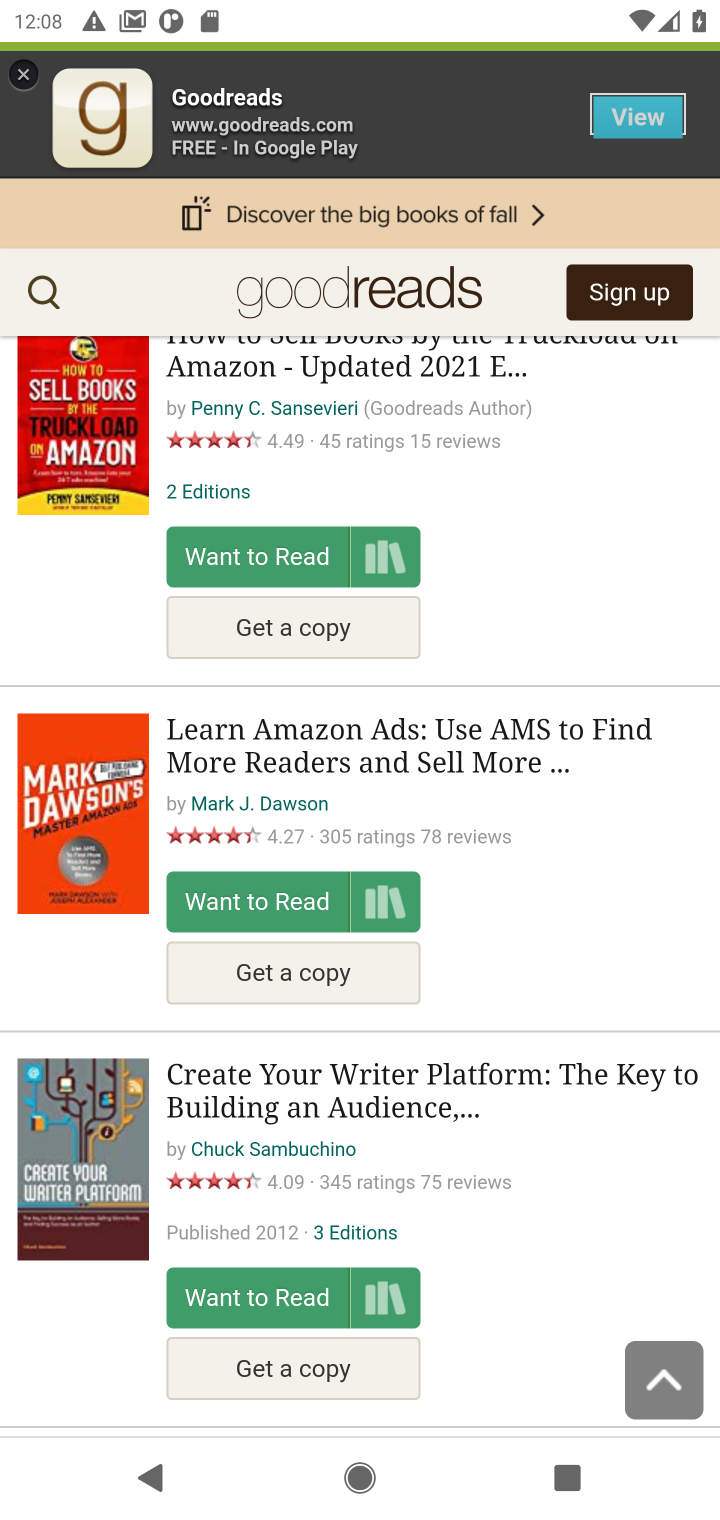
Step 30: drag from (486, 676) to (486, 341)
Your task to perform on an android device: Look up the best selling books on Goodreads. Image 31: 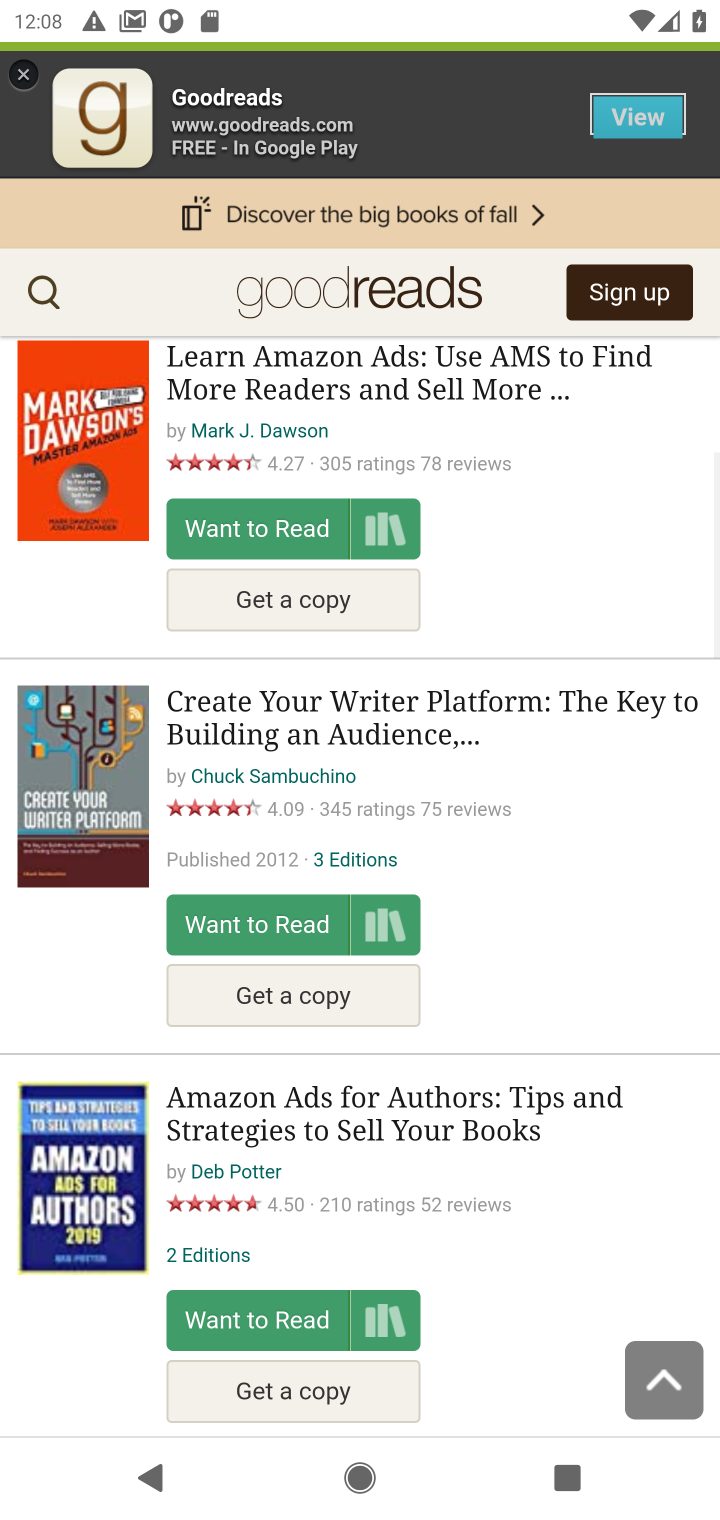
Step 31: drag from (482, 1124) to (387, 428)
Your task to perform on an android device: Look up the best selling books on Goodreads. Image 32: 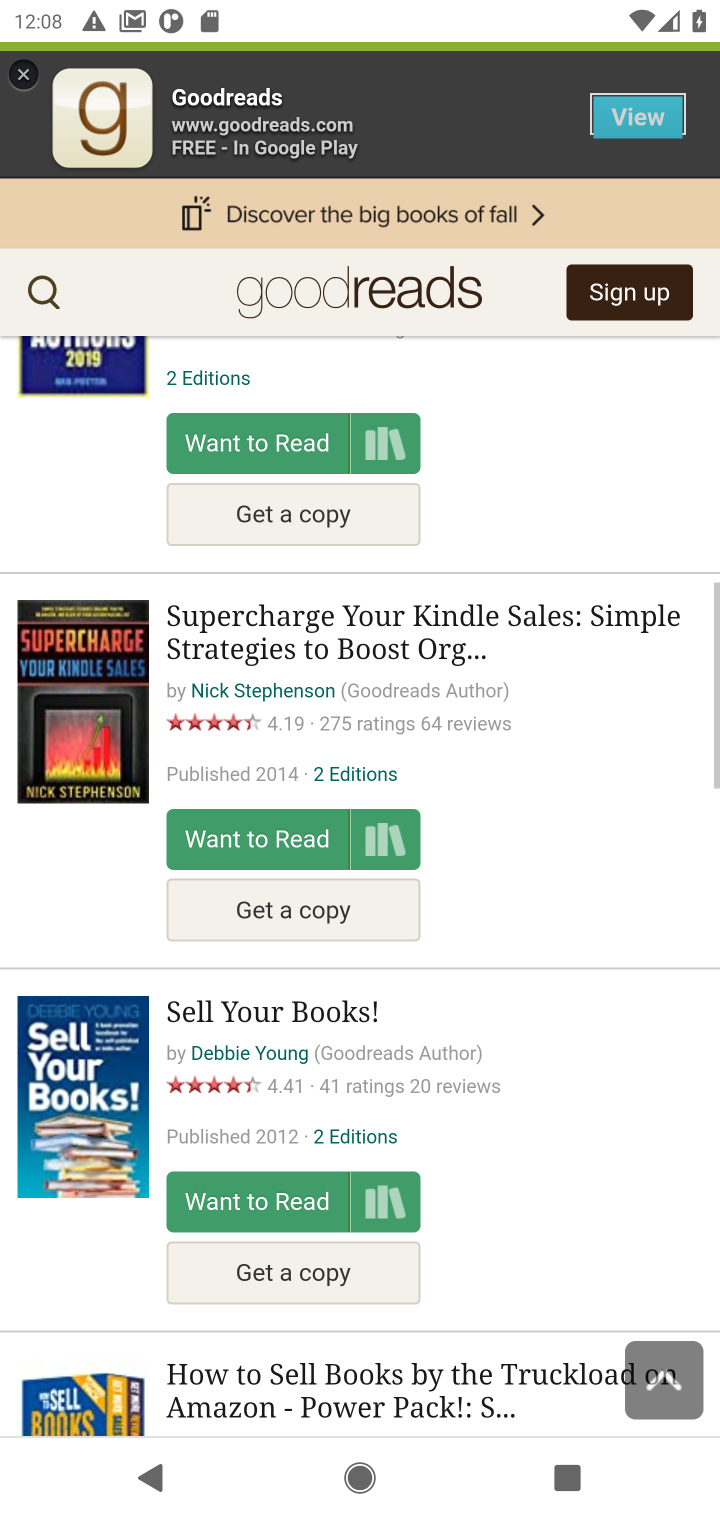
Step 32: drag from (389, 908) to (370, 492)
Your task to perform on an android device: Look up the best selling books on Goodreads. Image 33: 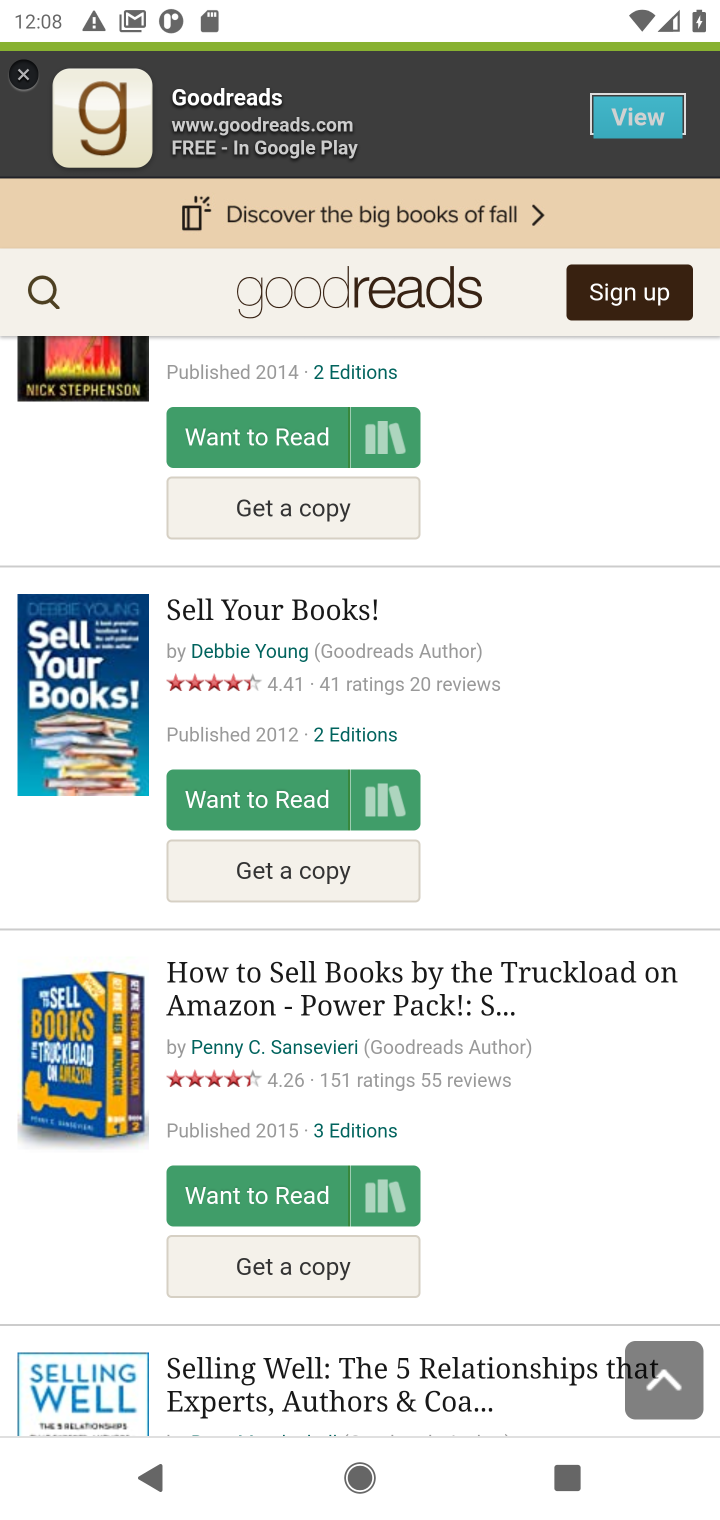
Step 33: drag from (443, 803) to (439, 636)
Your task to perform on an android device: Look up the best selling books on Goodreads. Image 34: 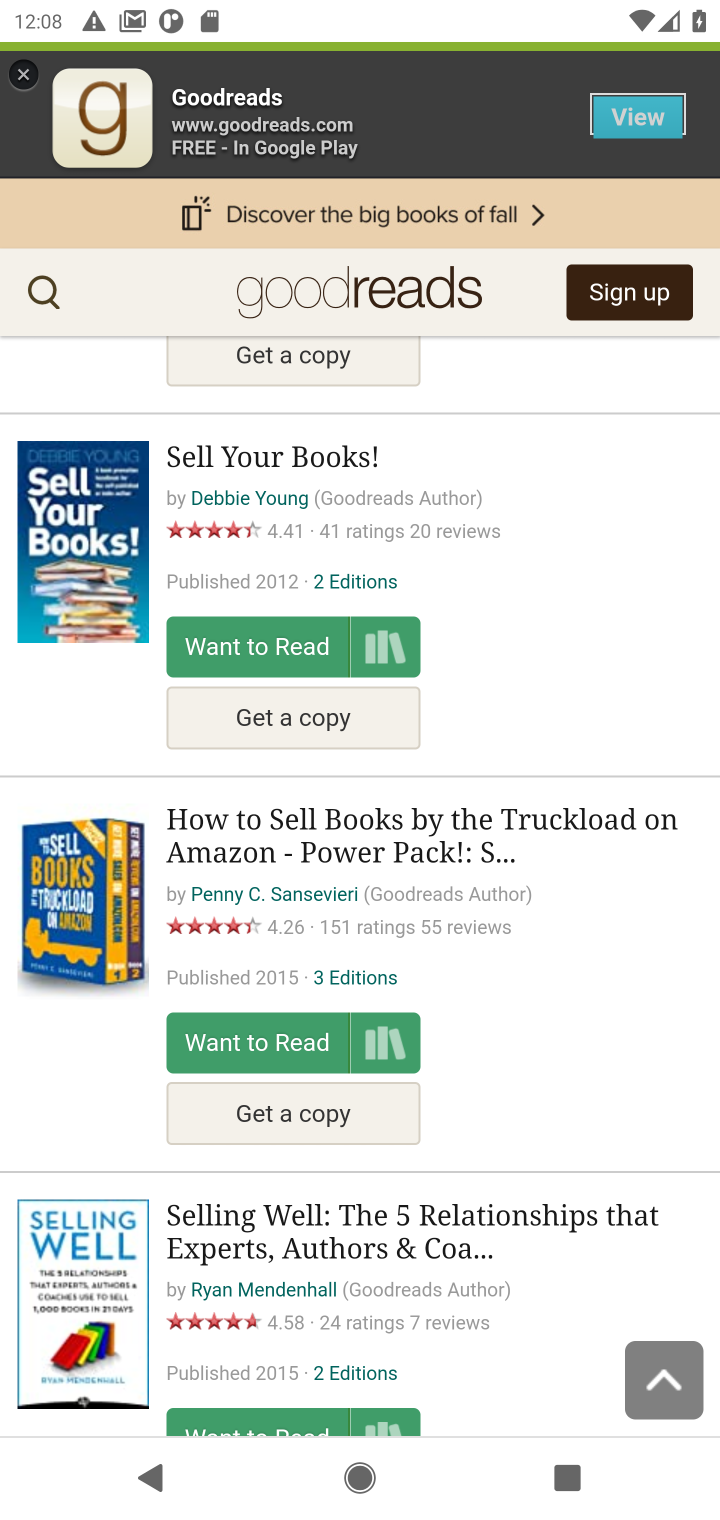
Step 34: click (513, 1048)
Your task to perform on an android device: Look up the best selling books on Goodreads. Image 35: 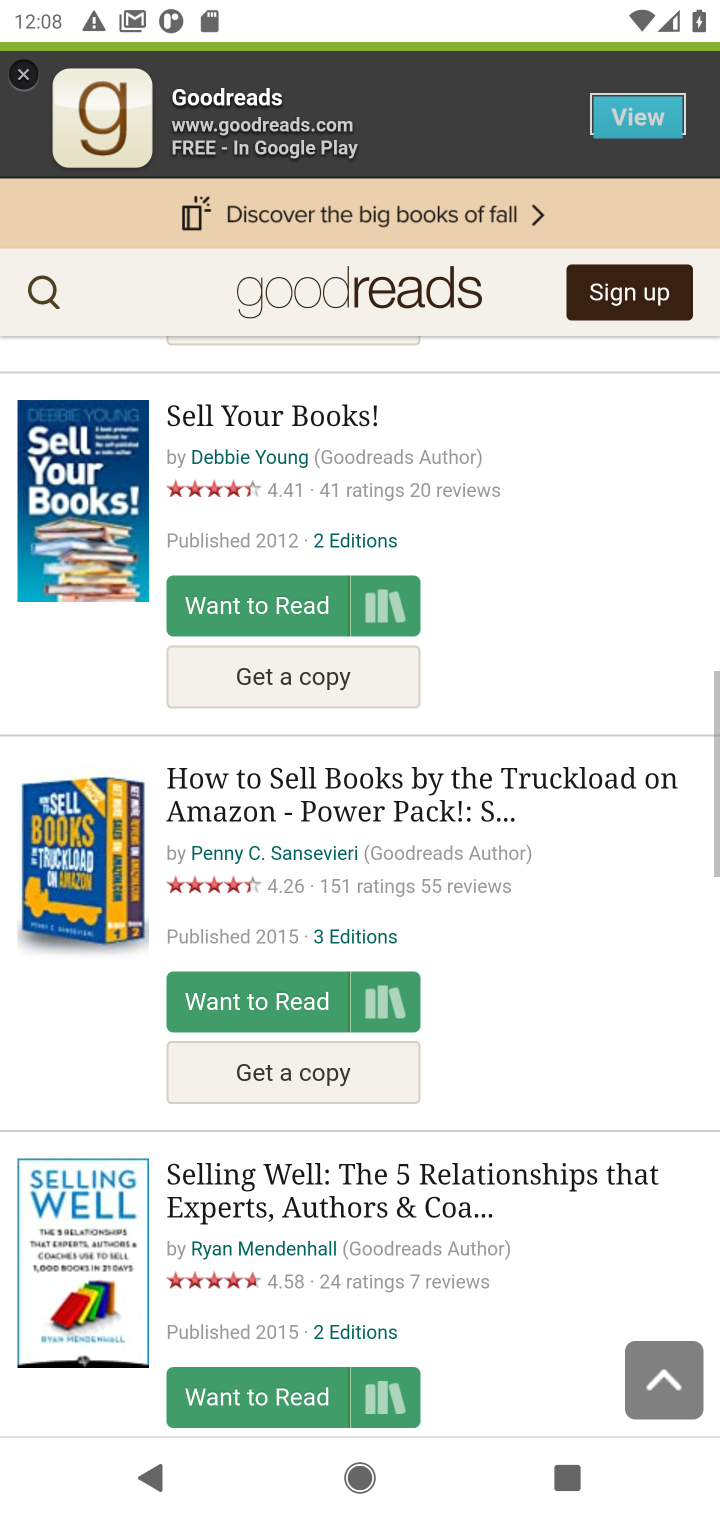
Step 35: drag from (521, 904) to (521, 559)
Your task to perform on an android device: Look up the best selling books on Goodreads. Image 36: 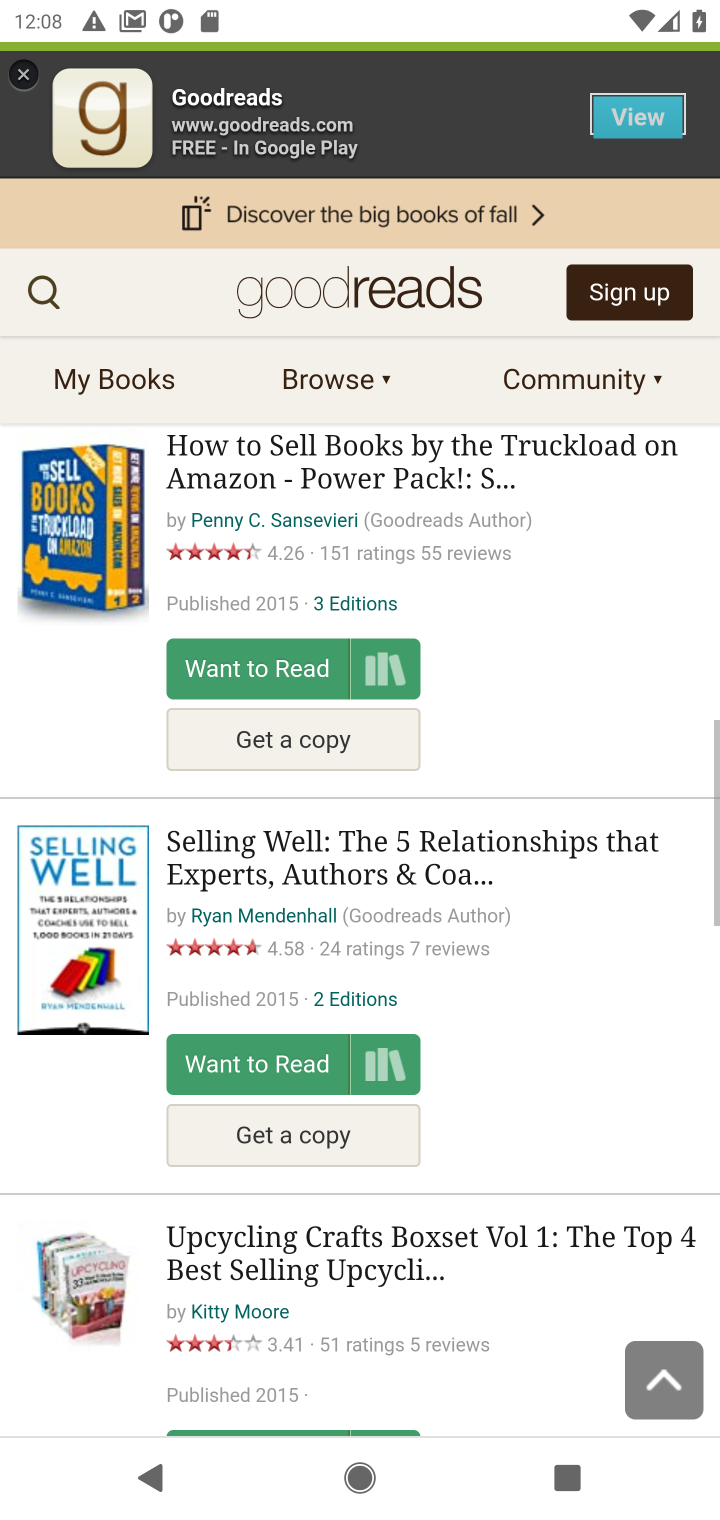
Step 36: click (399, 662)
Your task to perform on an android device: Look up the best selling books on Goodreads. Image 37: 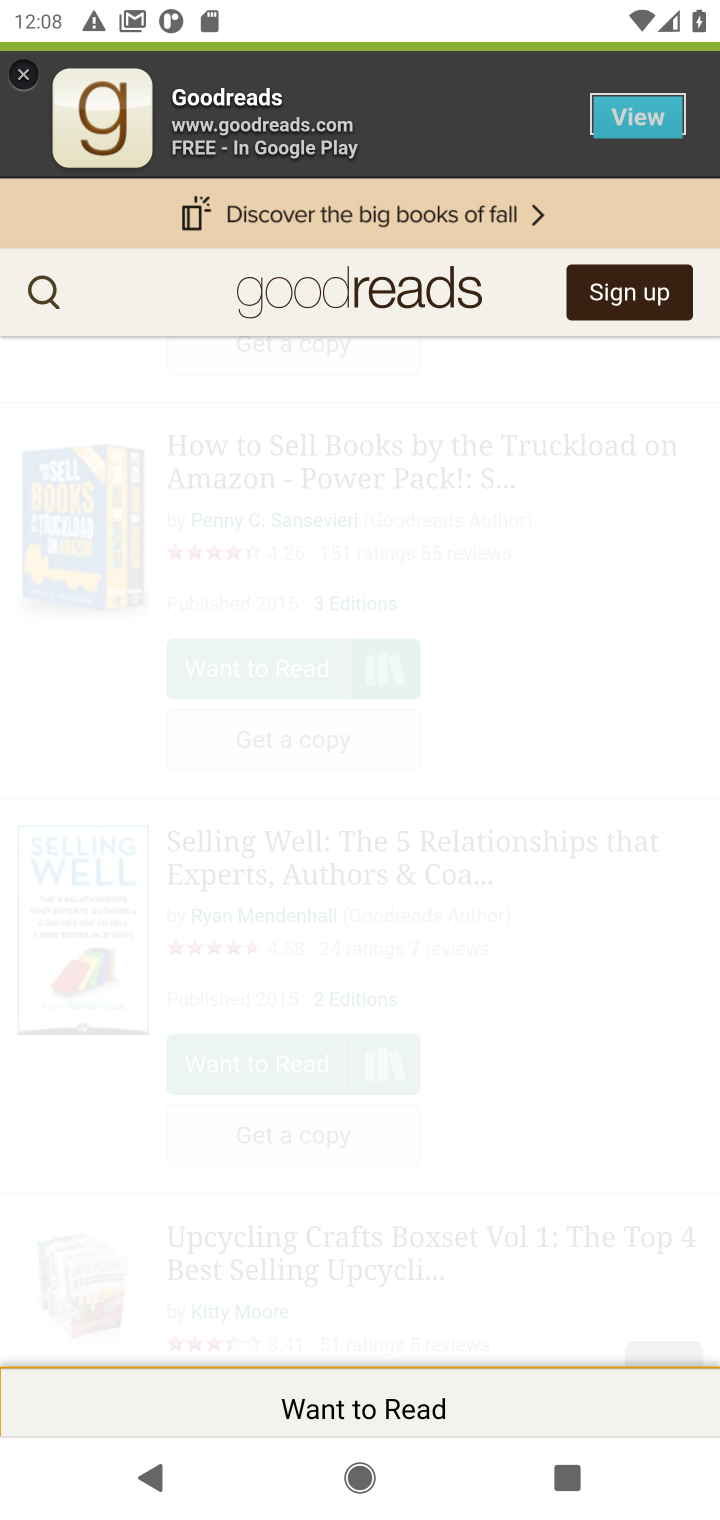
Step 37: task complete